Your task to perform on an android device: change the clock display to digital Image 0: 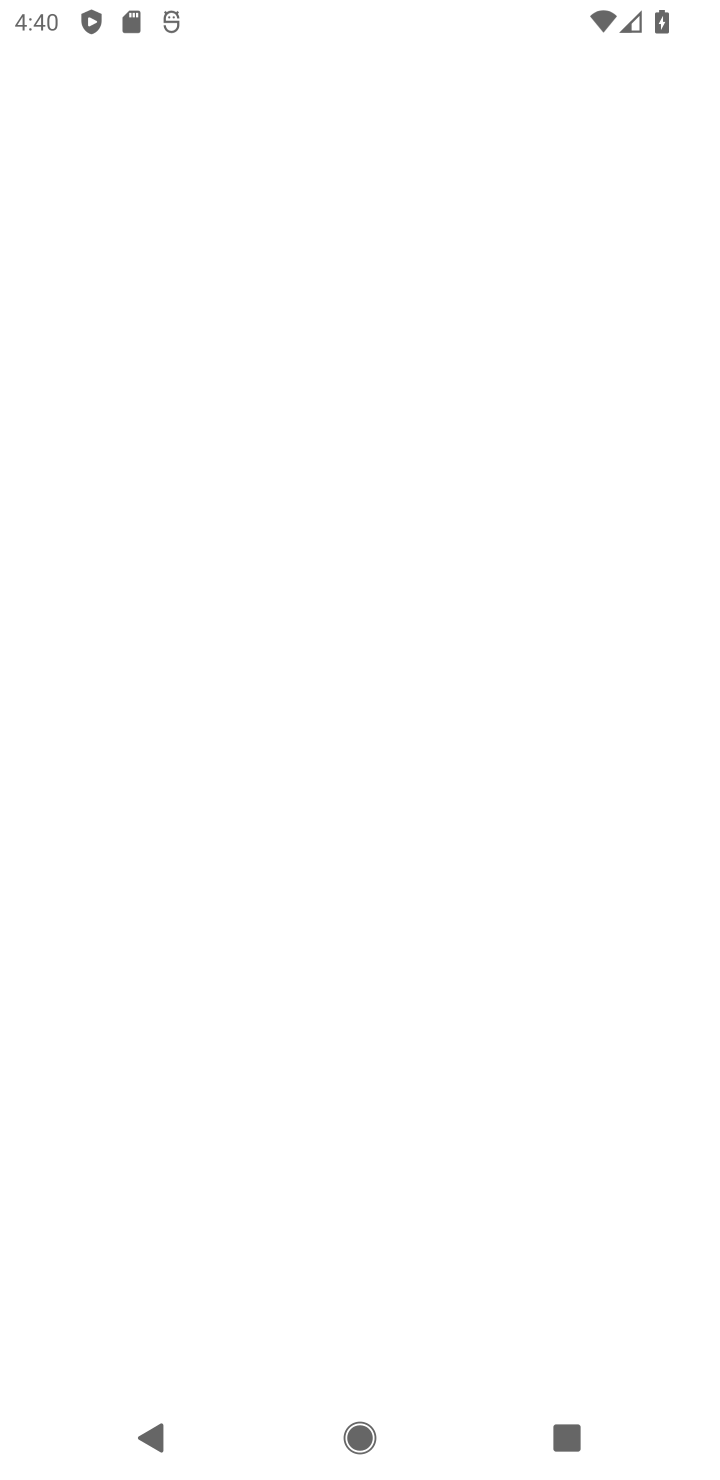
Step 0: click (40, 89)
Your task to perform on an android device: change the clock display to digital Image 1: 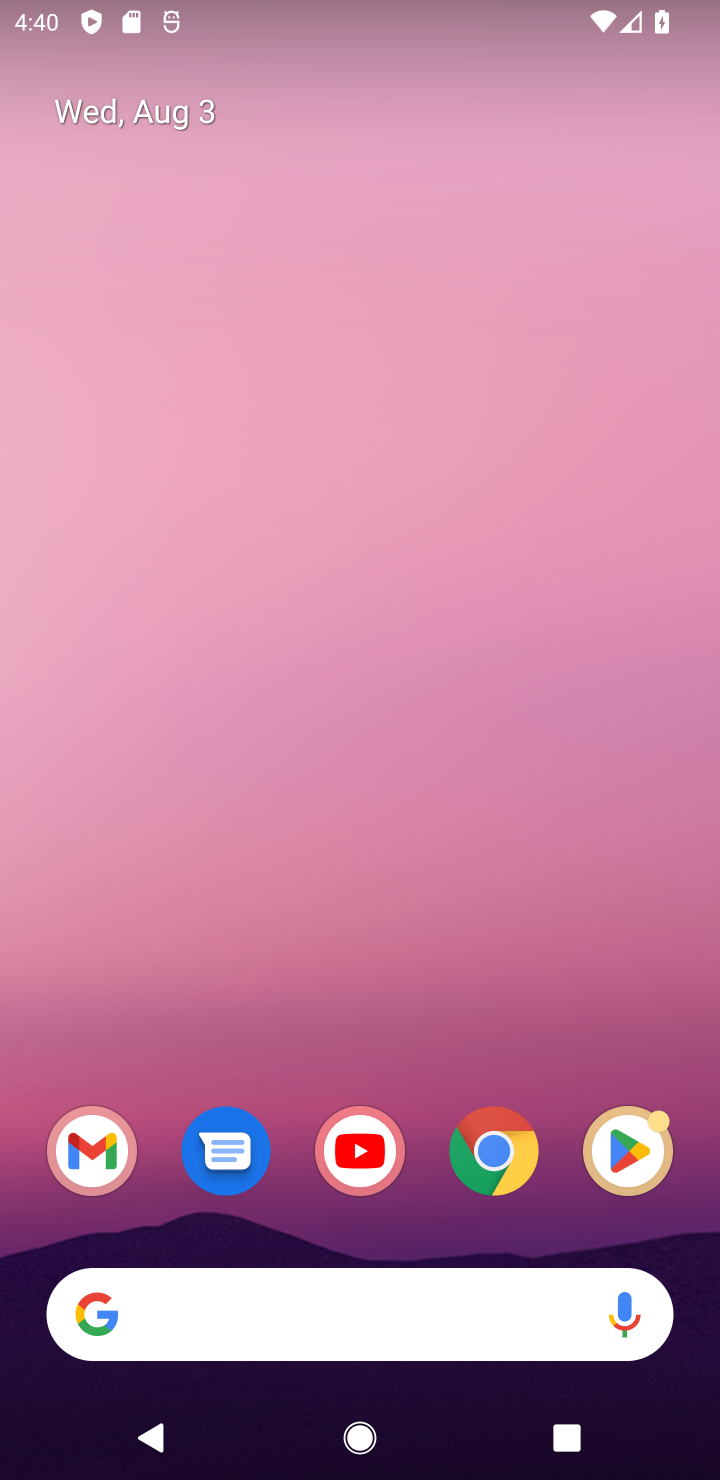
Step 1: press back button
Your task to perform on an android device: change the clock display to digital Image 2: 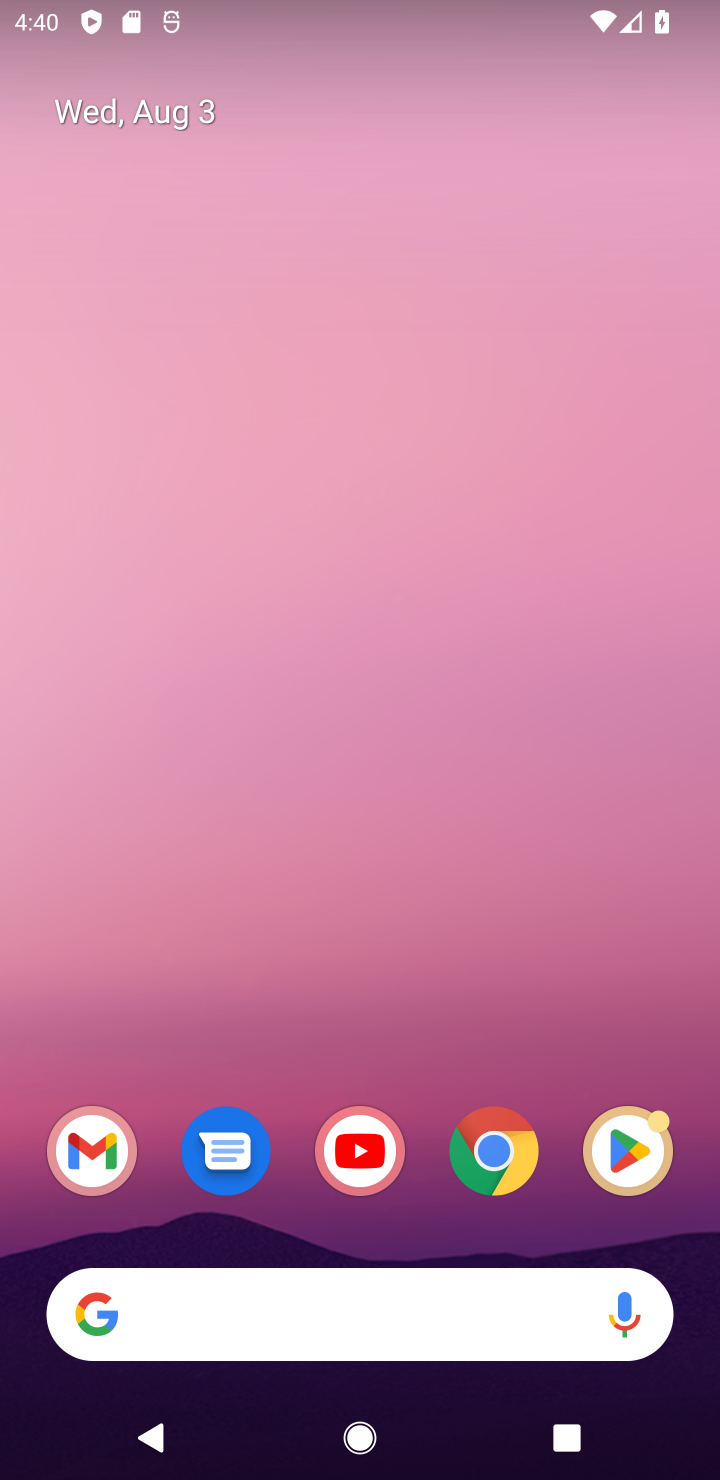
Step 2: drag from (299, 898) to (253, 472)
Your task to perform on an android device: change the clock display to digital Image 3: 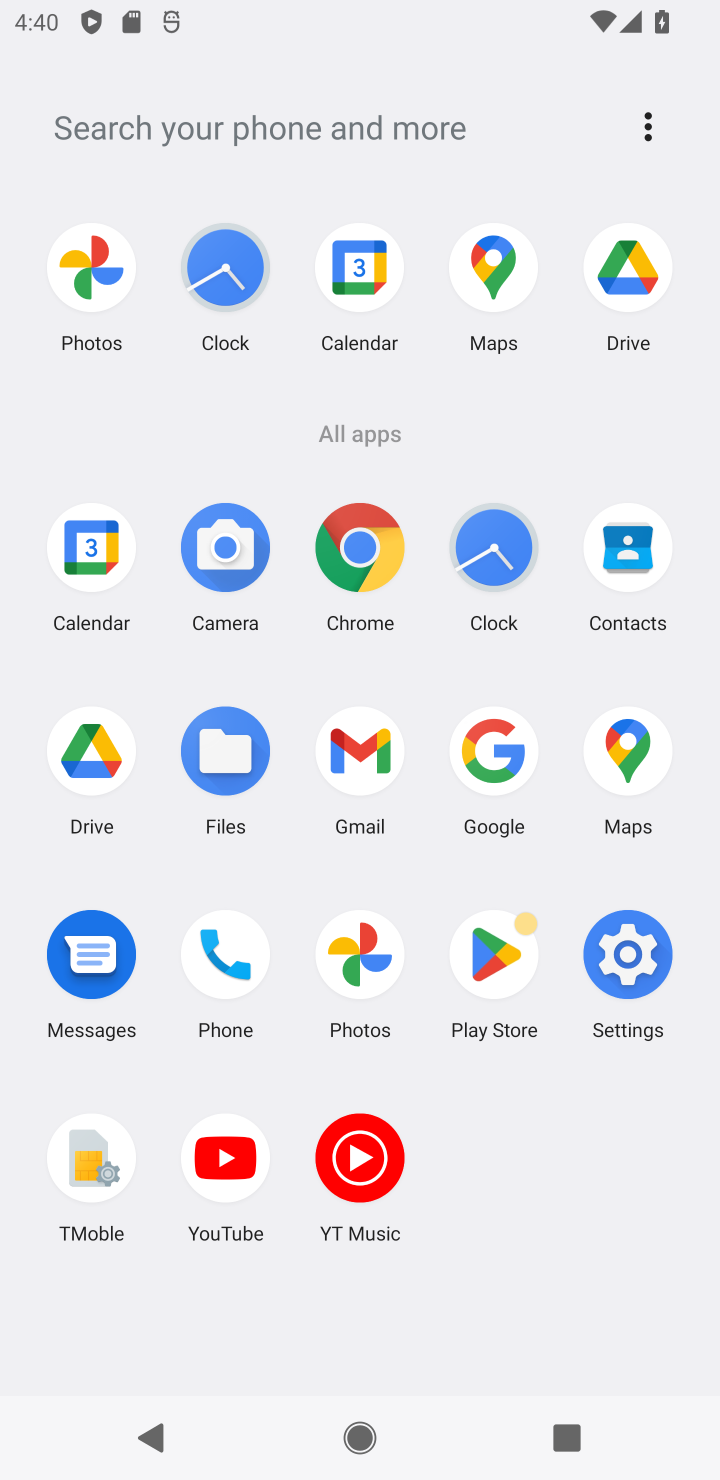
Step 3: click (490, 536)
Your task to perform on an android device: change the clock display to digital Image 4: 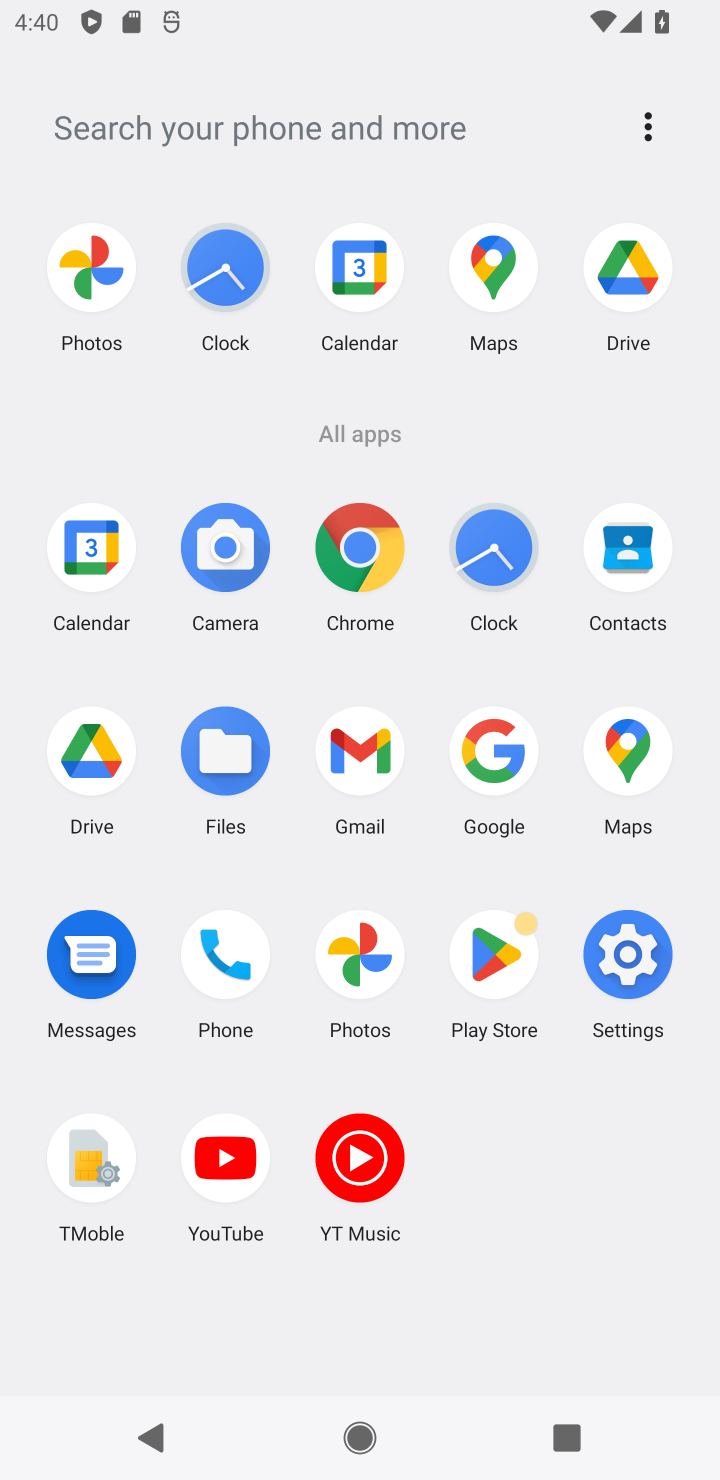
Step 4: click (499, 536)
Your task to perform on an android device: change the clock display to digital Image 5: 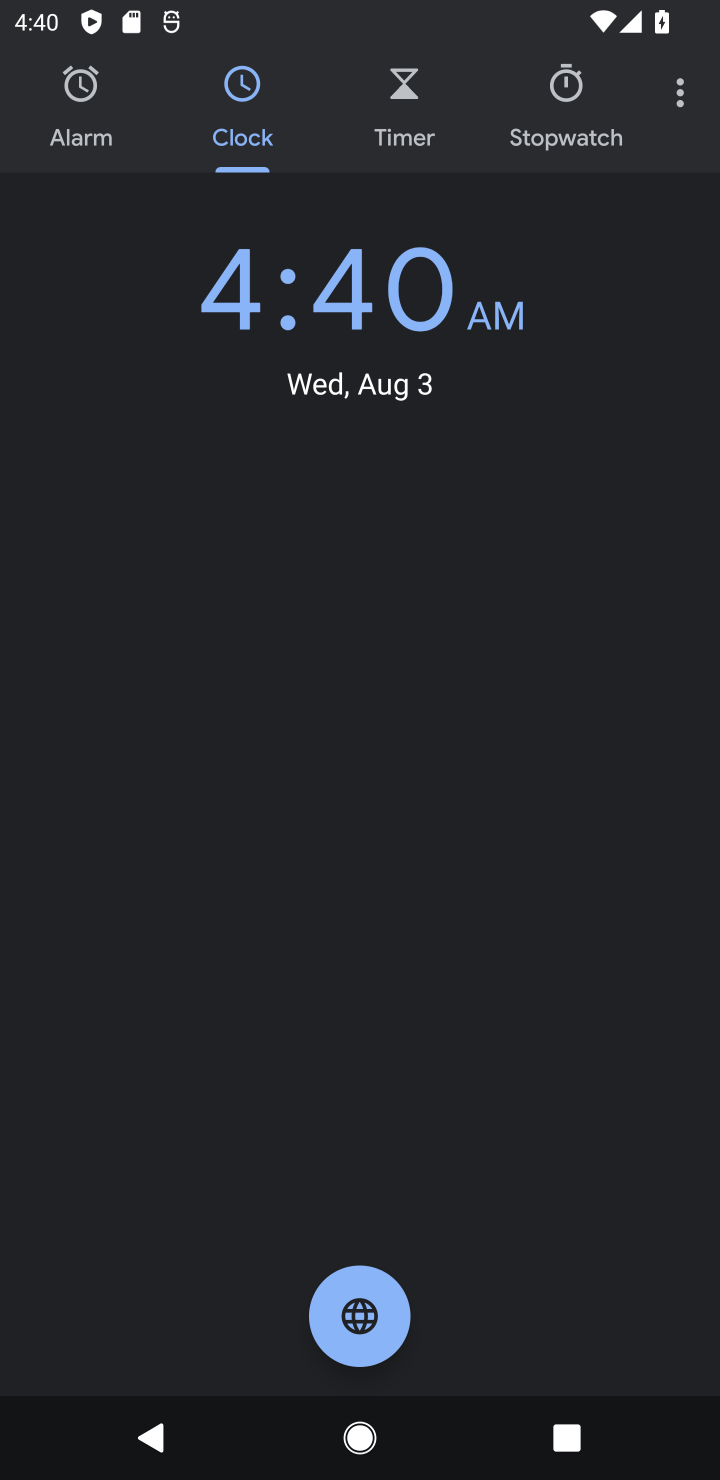
Step 5: click (679, 81)
Your task to perform on an android device: change the clock display to digital Image 6: 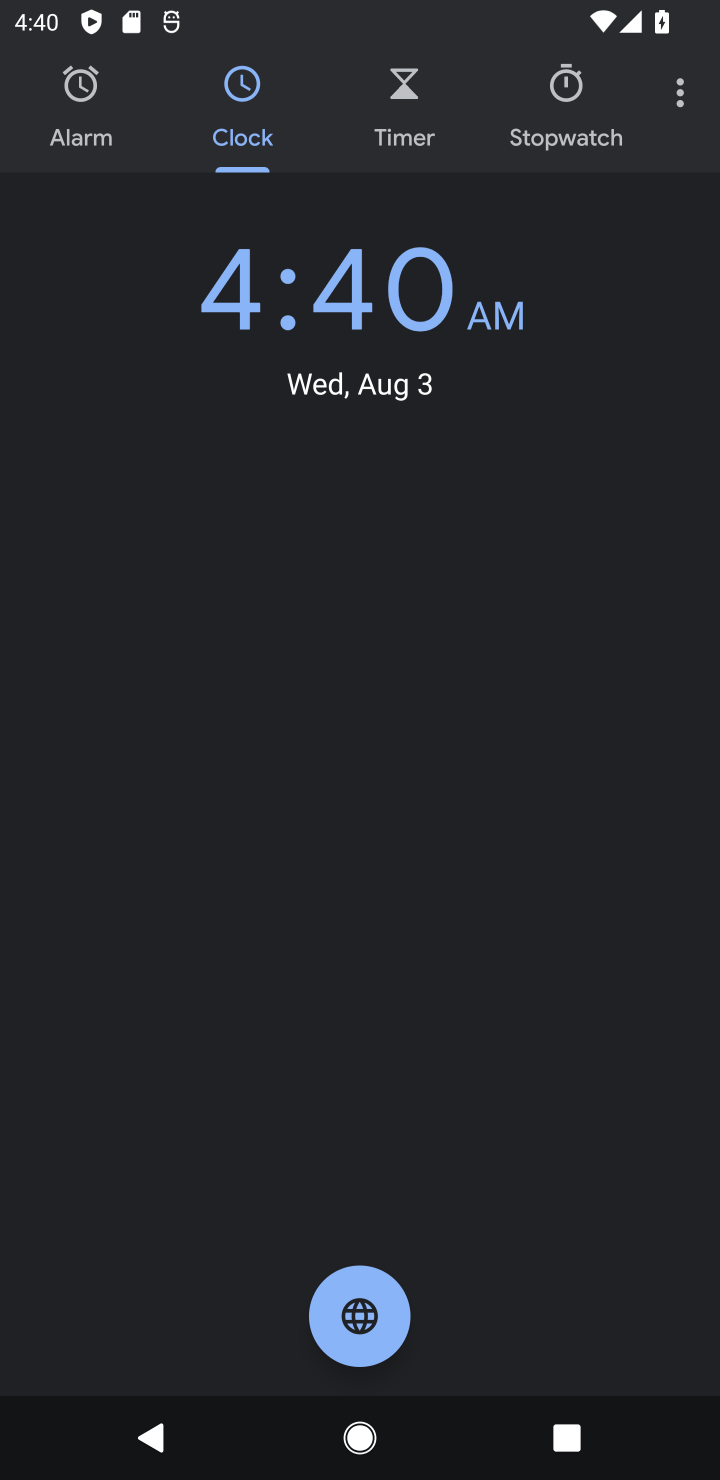
Step 6: click (665, 99)
Your task to perform on an android device: change the clock display to digital Image 7: 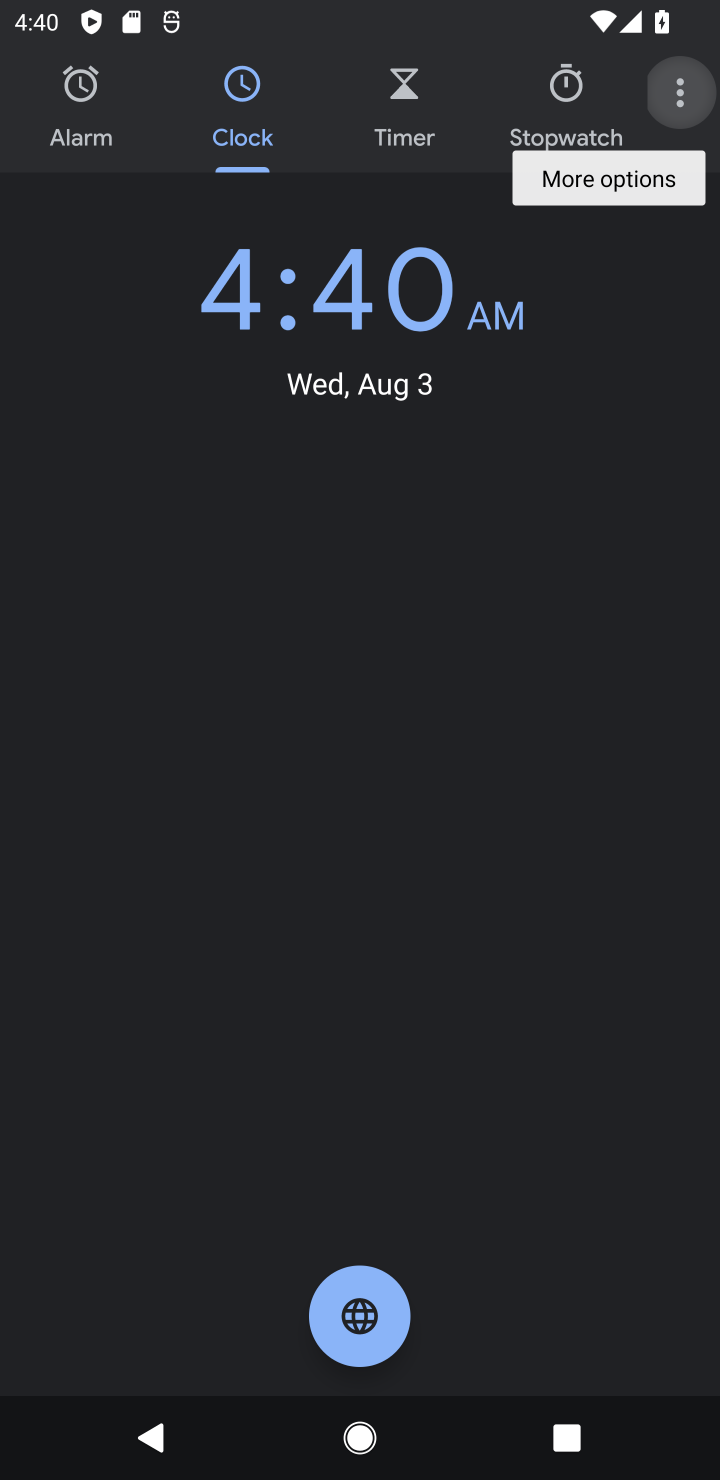
Step 7: click (665, 99)
Your task to perform on an android device: change the clock display to digital Image 8: 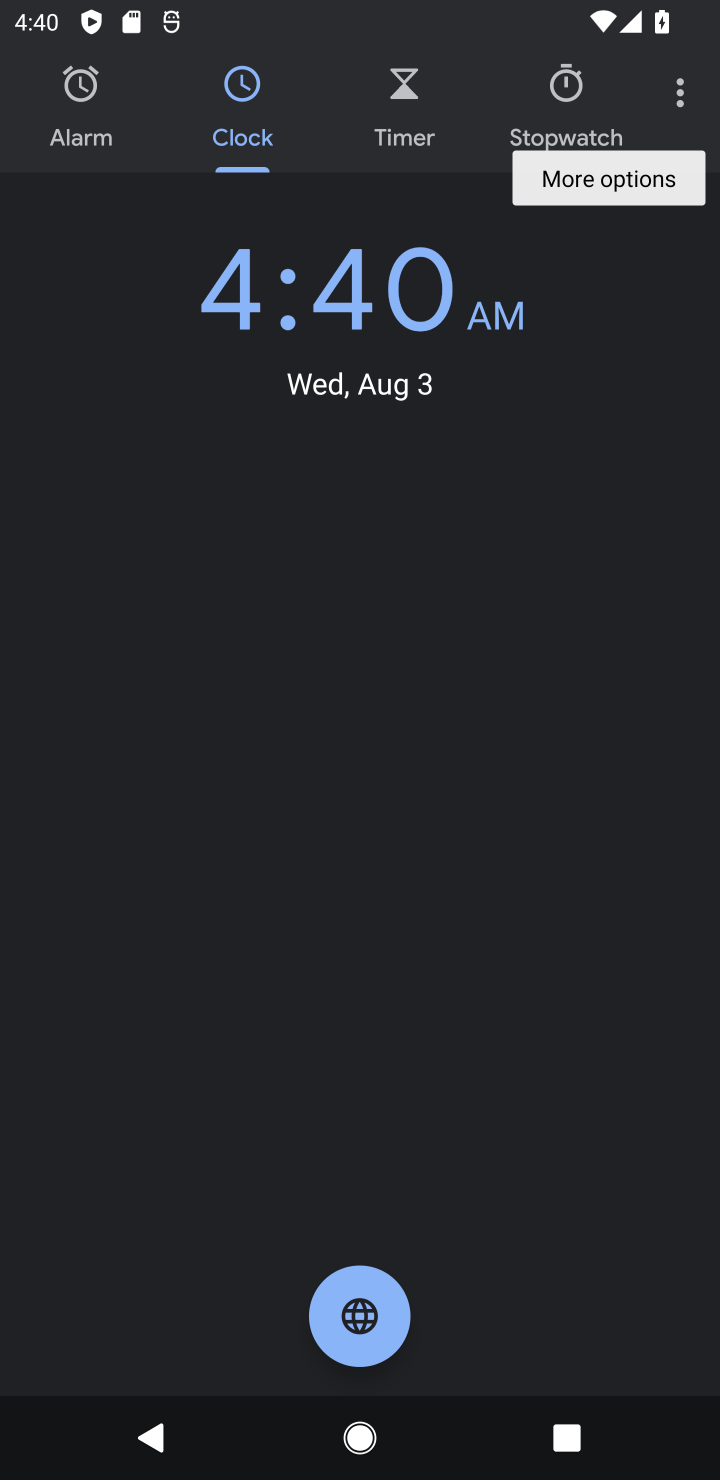
Step 8: click (639, 171)
Your task to perform on an android device: change the clock display to digital Image 9: 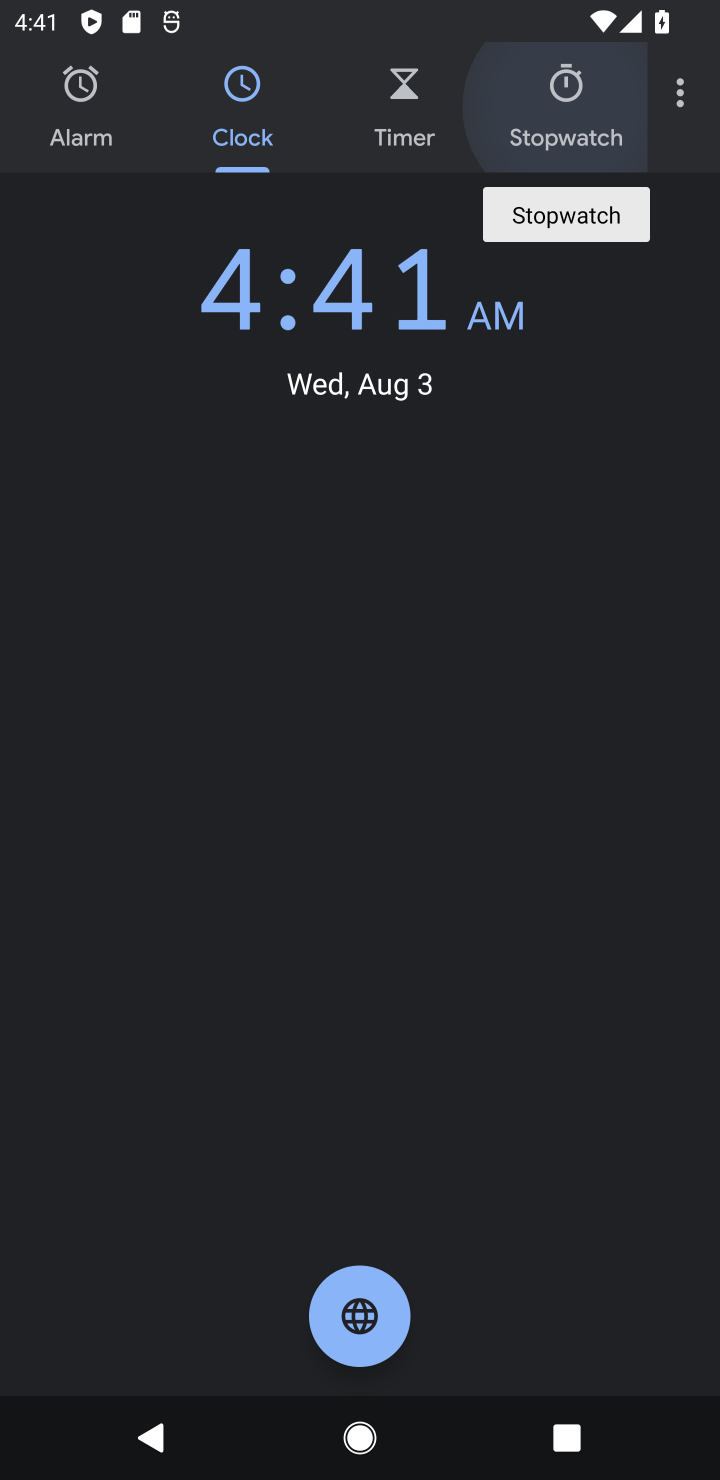
Step 9: click (663, 92)
Your task to perform on an android device: change the clock display to digital Image 10: 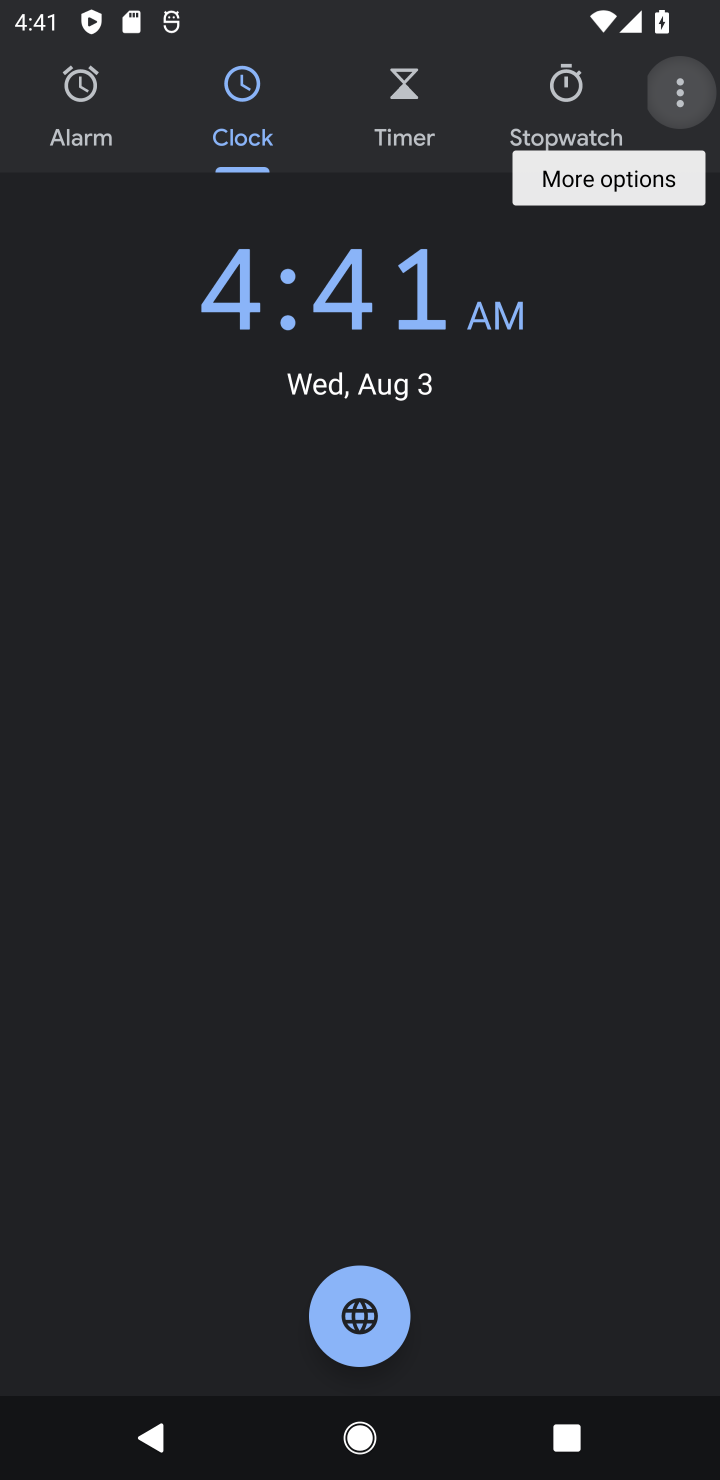
Step 10: click (656, 164)
Your task to perform on an android device: change the clock display to digital Image 11: 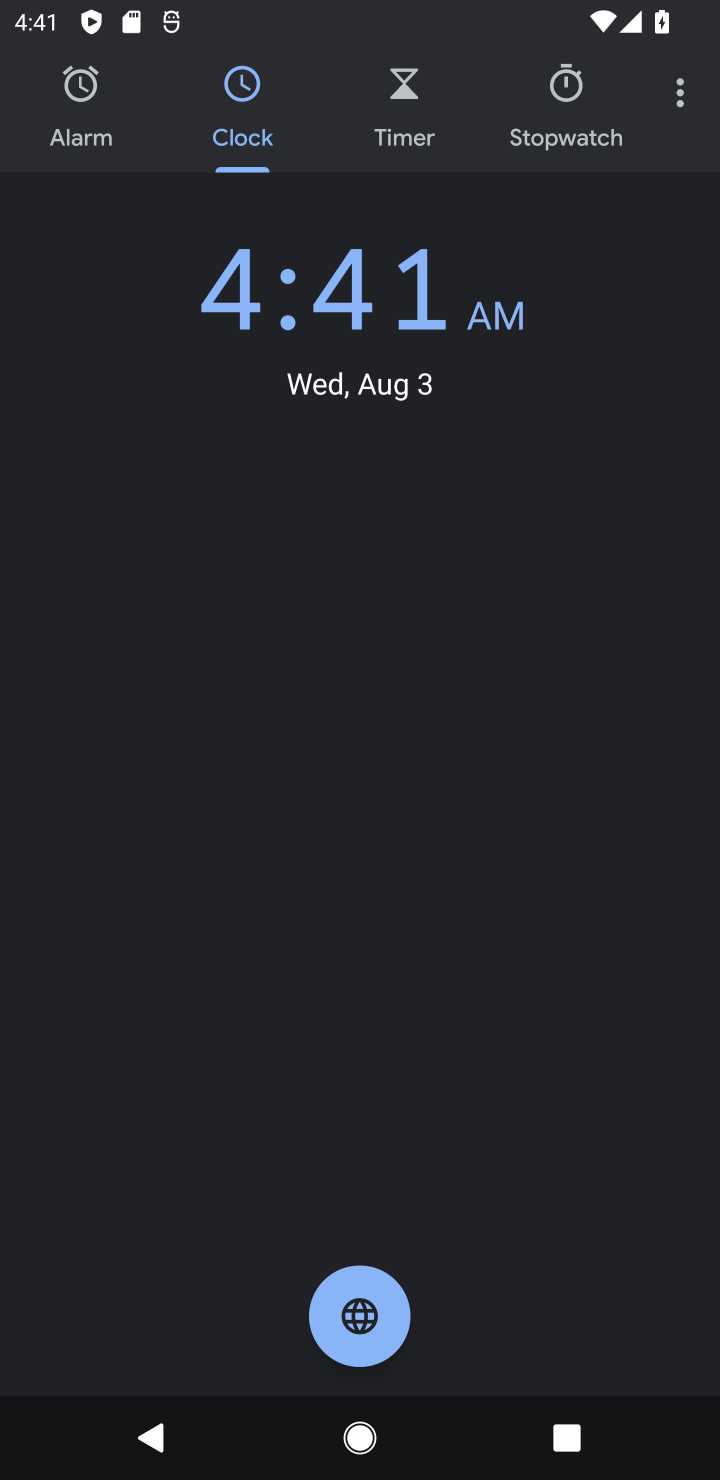
Step 11: click (656, 164)
Your task to perform on an android device: change the clock display to digital Image 12: 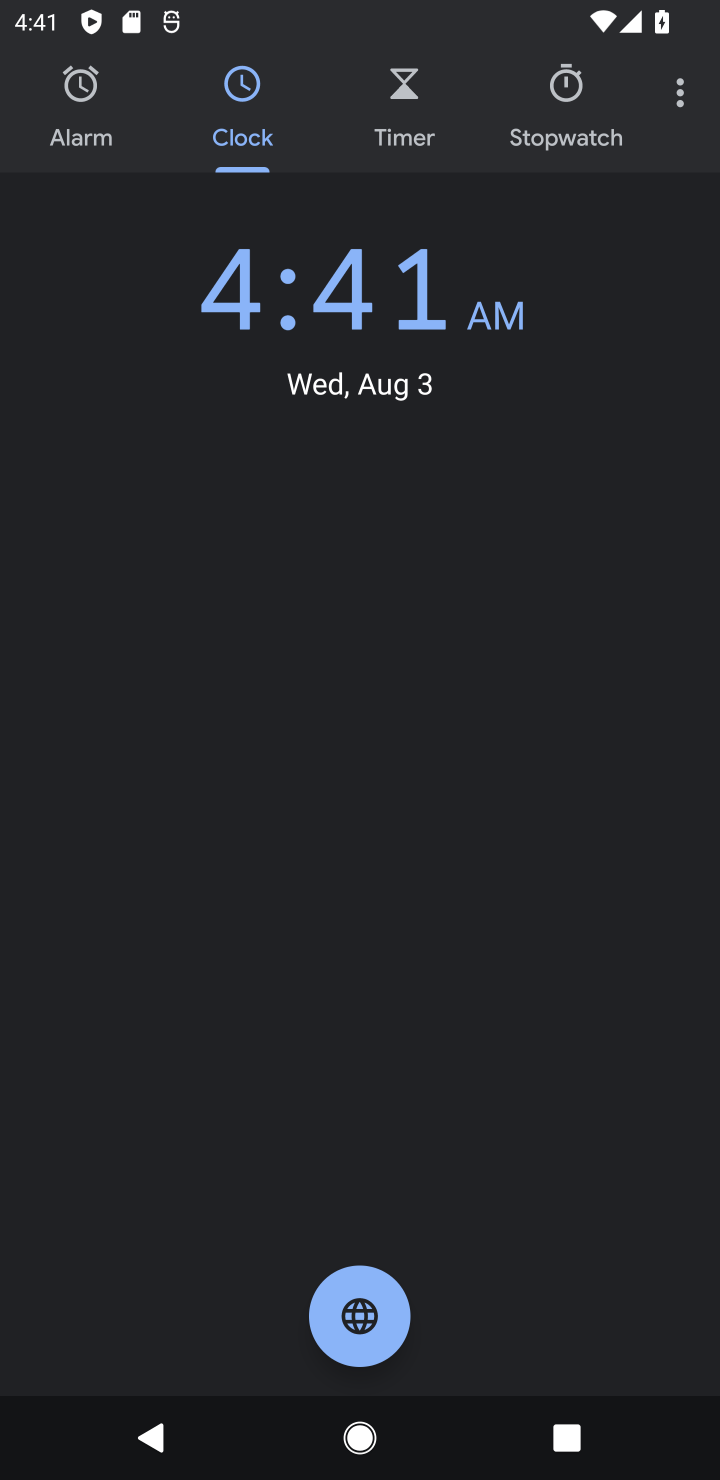
Step 12: click (689, 90)
Your task to perform on an android device: change the clock display to digital Image 13: 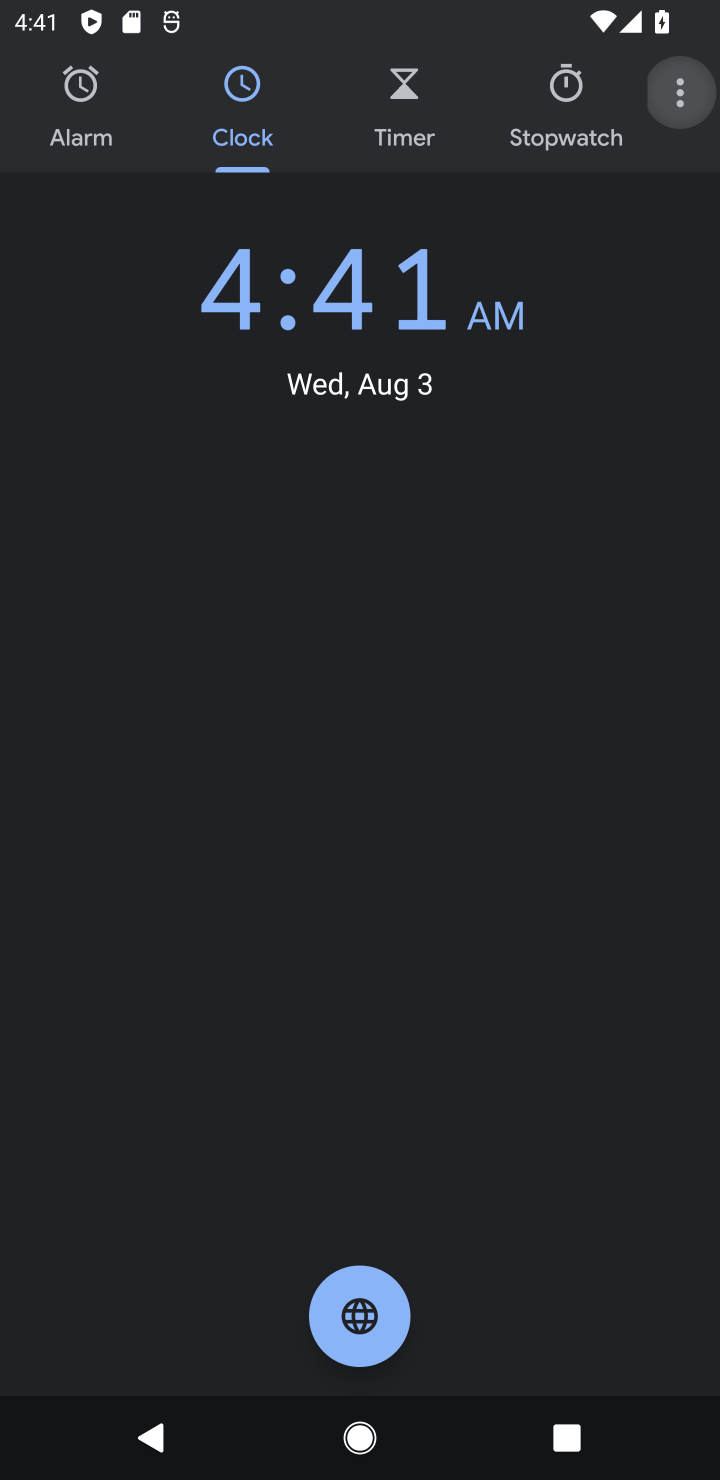
Step 13: click (687, 95)
Your task to perform on an android device: change the clock display to digital Image 14: 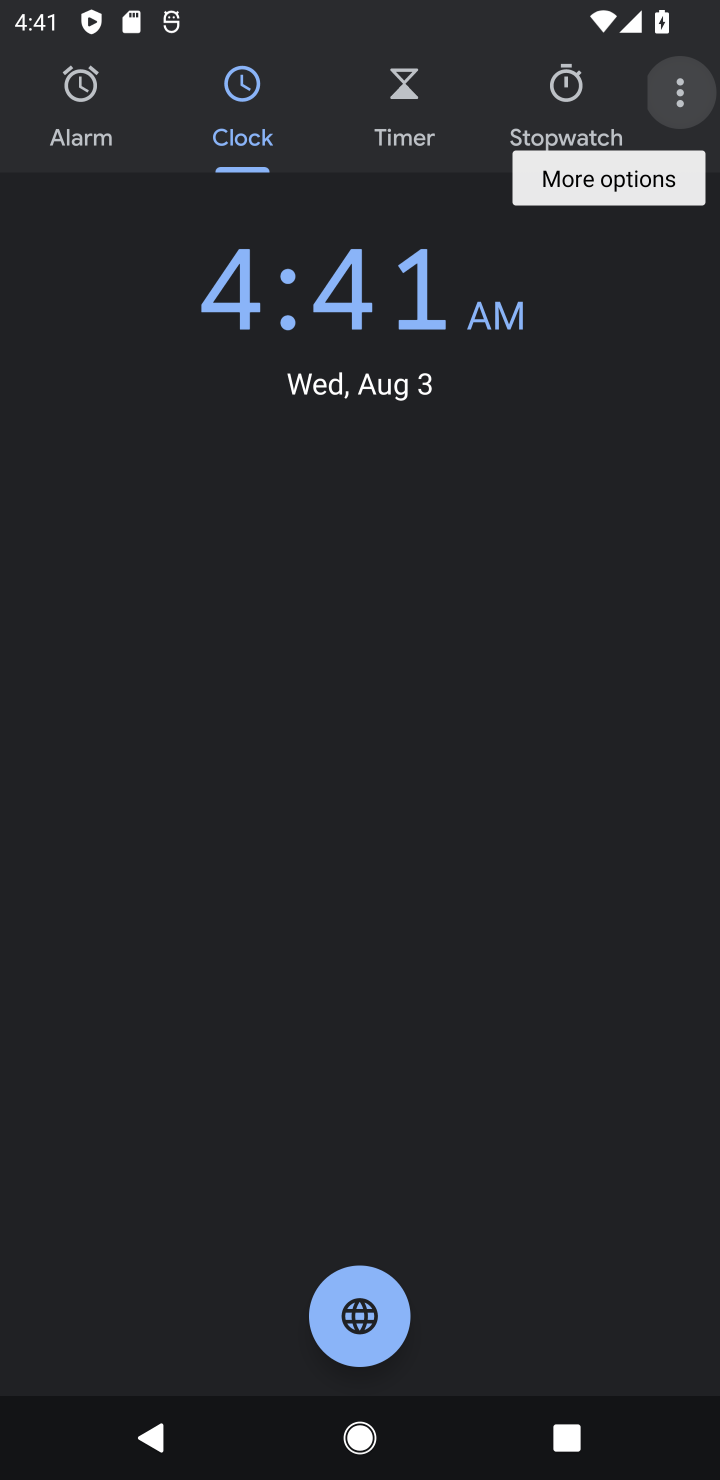
Step 14: click (674, 93)
Your task to perform on an android device: change the clock display to digital Image 15: 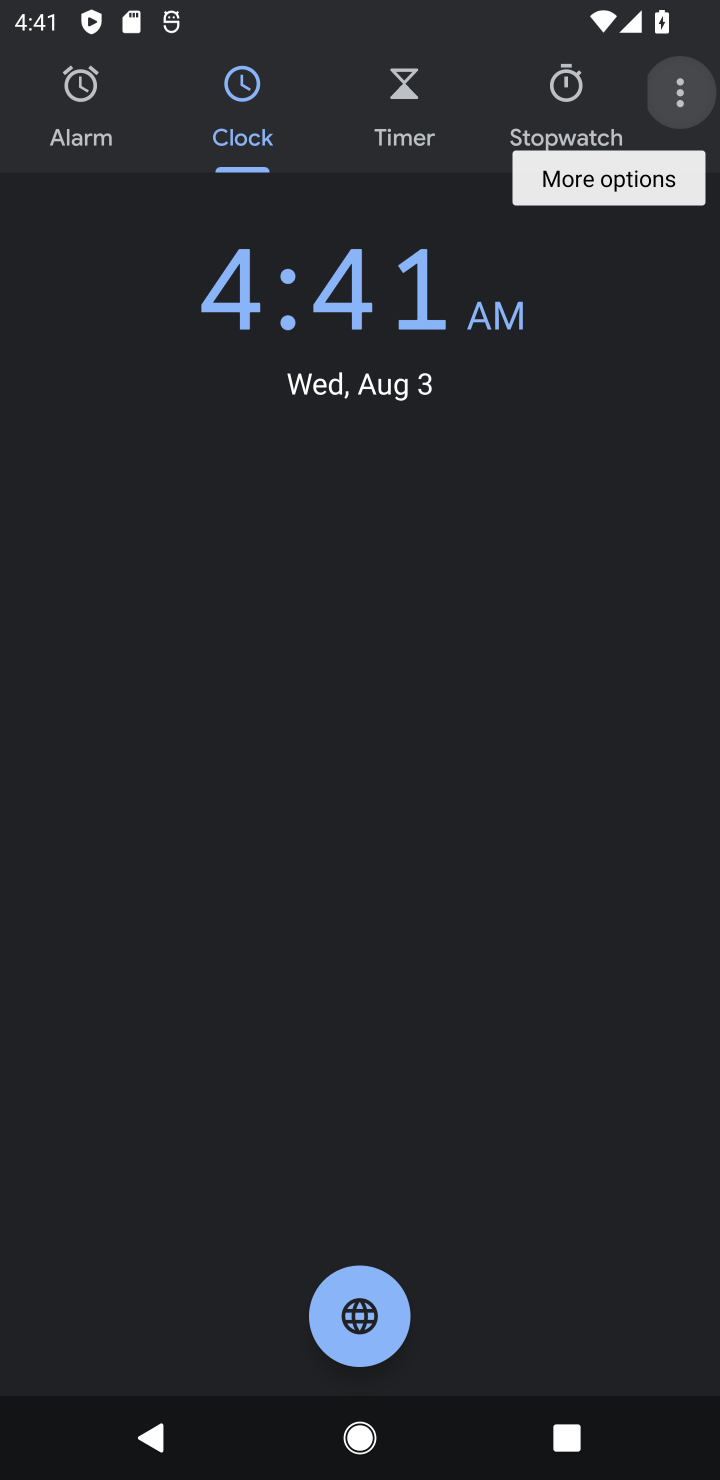
Step 15: click (660, 207)
Your task to perform on an android device: change the clock display to digital Image 16: 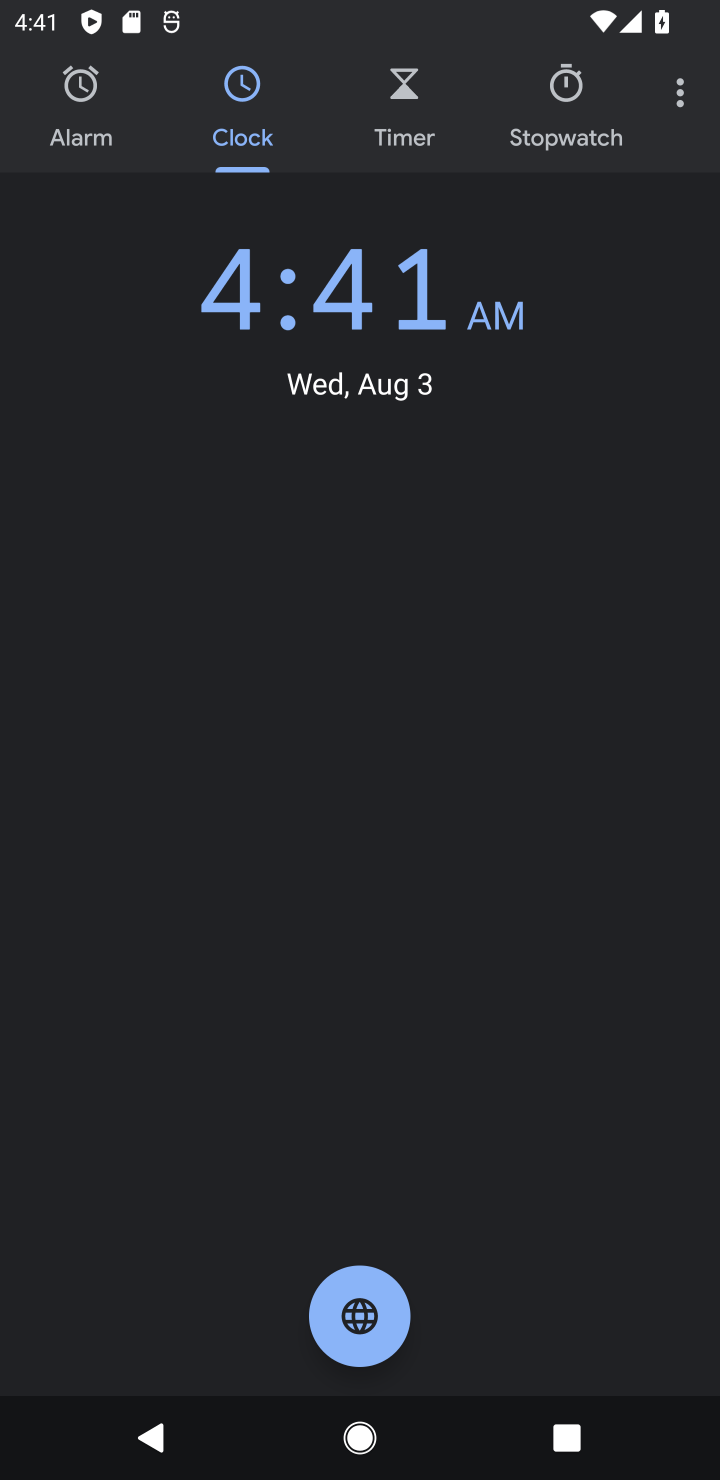
Step 16: click (663, 165)
Your task to perform on an android device: change the clock display to digital Image 17: 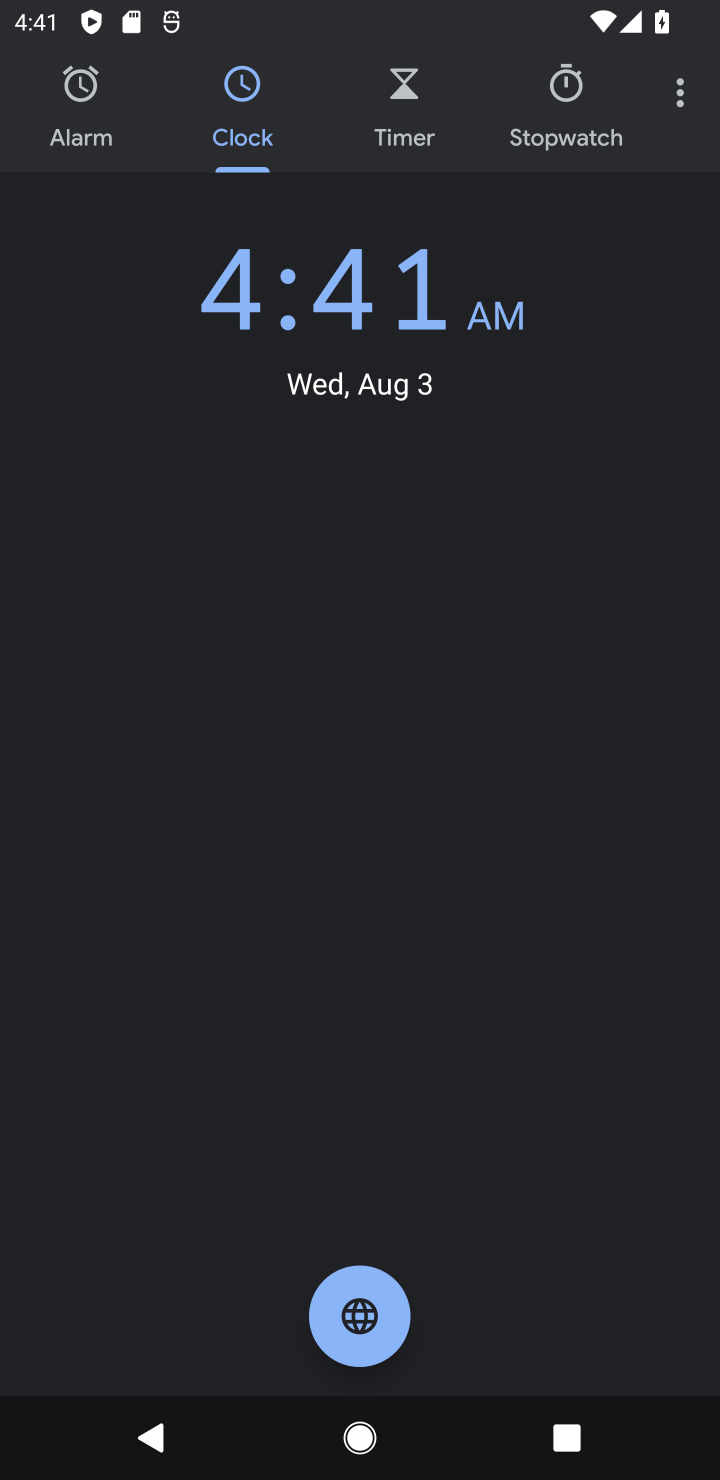
Step 17: click (664, 164)
Your task to perform on an android device: change the clock display to digital Image 18: 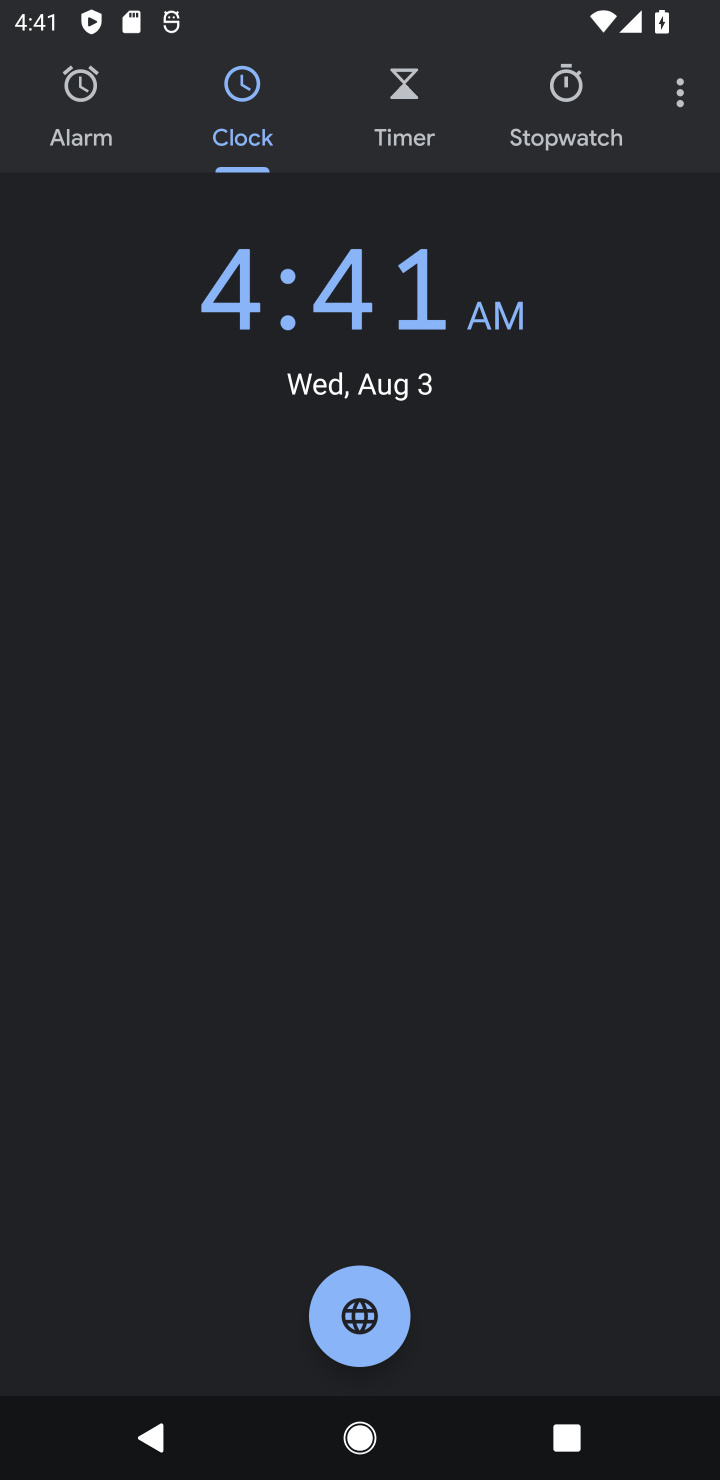
Step 18: click (675, 87)
Your task to perform on an android device: change the clock display to digital Image 19: 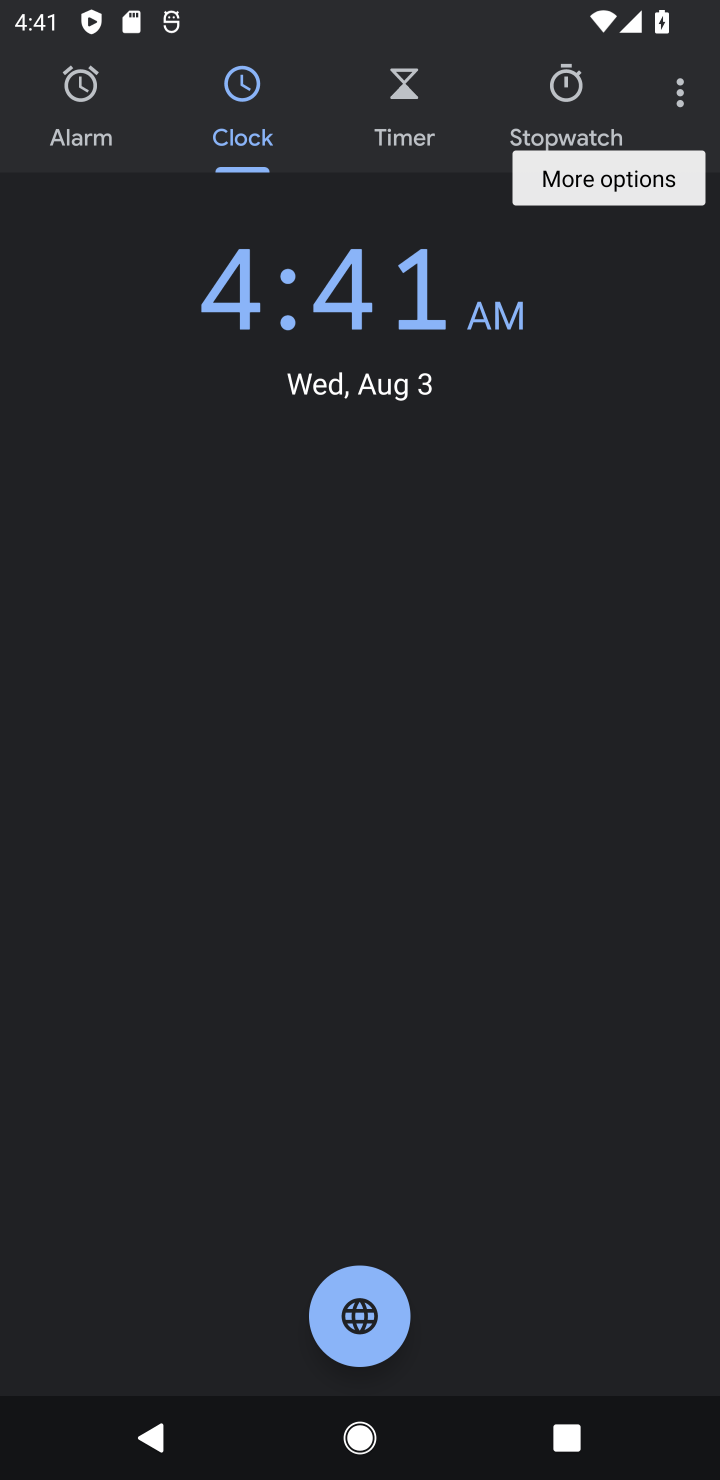
Step 19: click (672, 99)
Your task to perform on an android device: change the clock display to digital Image 20: 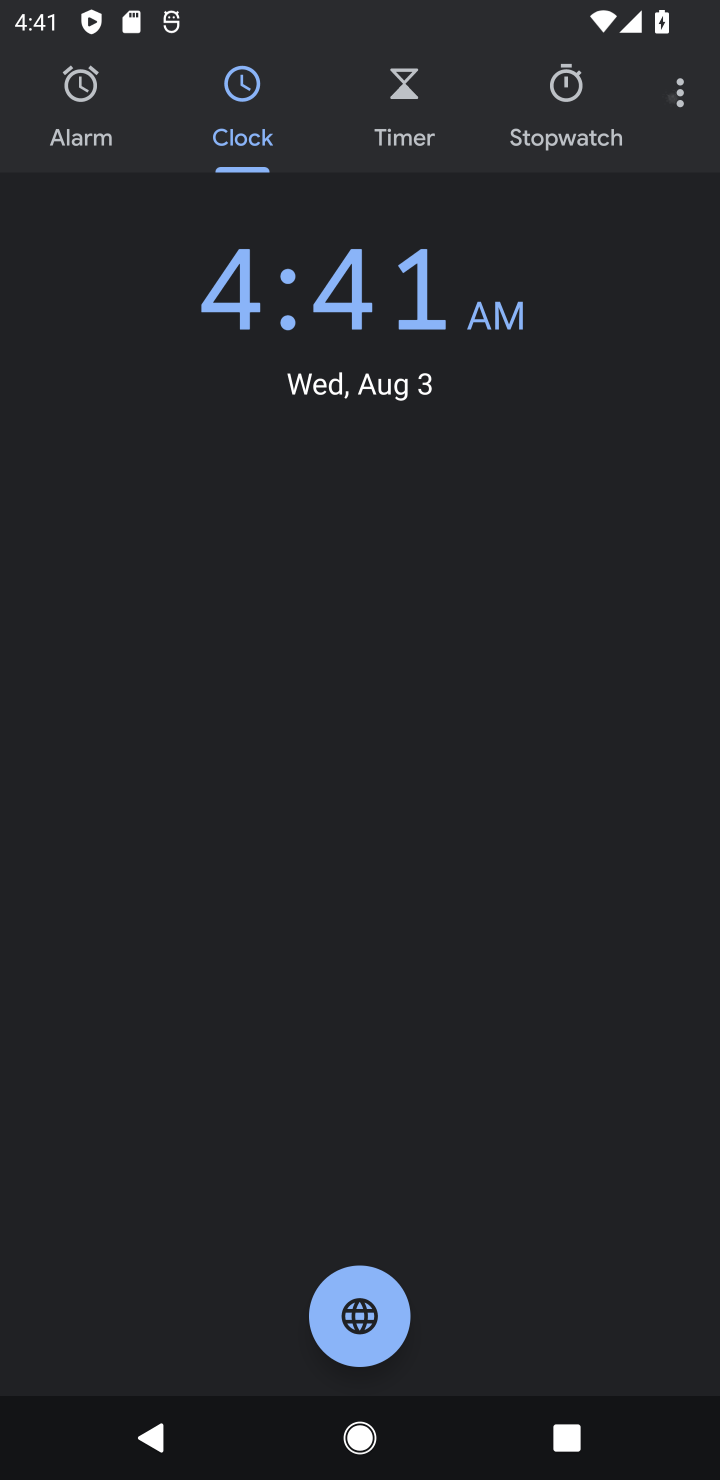
Step 20: click (672, 100)
Your task to perform on an android device: change the clock display to digital Image 21: 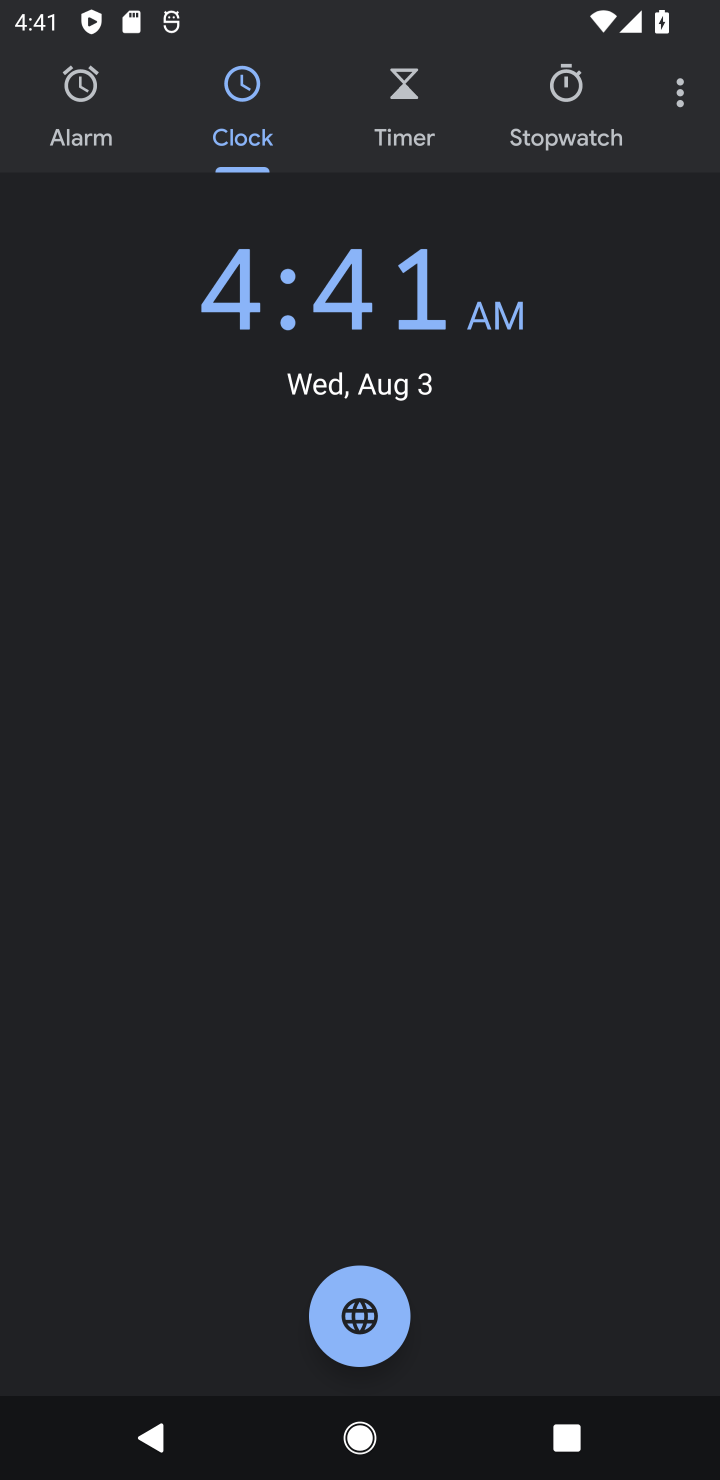
Step 21: drag from (674, 69) to (587, 705)
Your task to perform on an android device: change the clock display to digital Image 22: 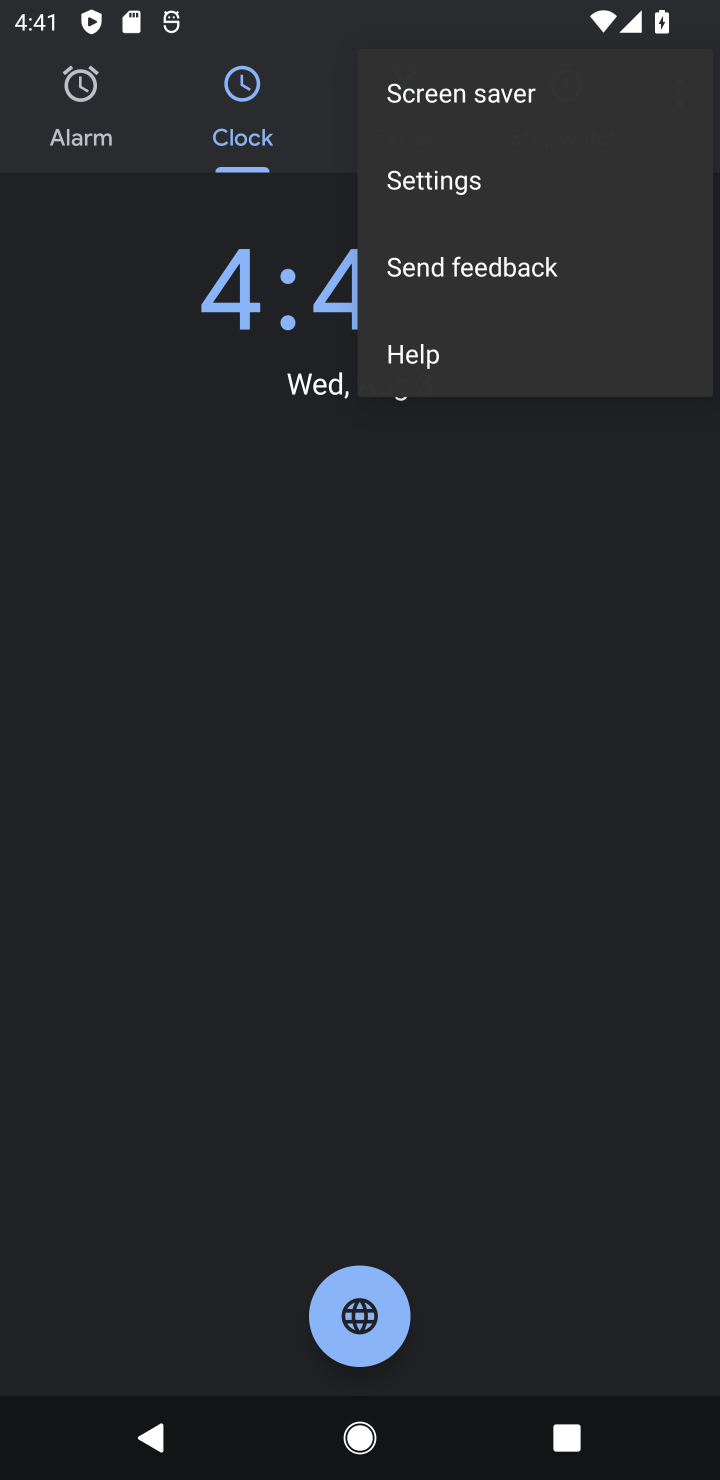
Step 22: click (640, 199)
Your task to perform on an android device: change the clock display to digital Image 23: 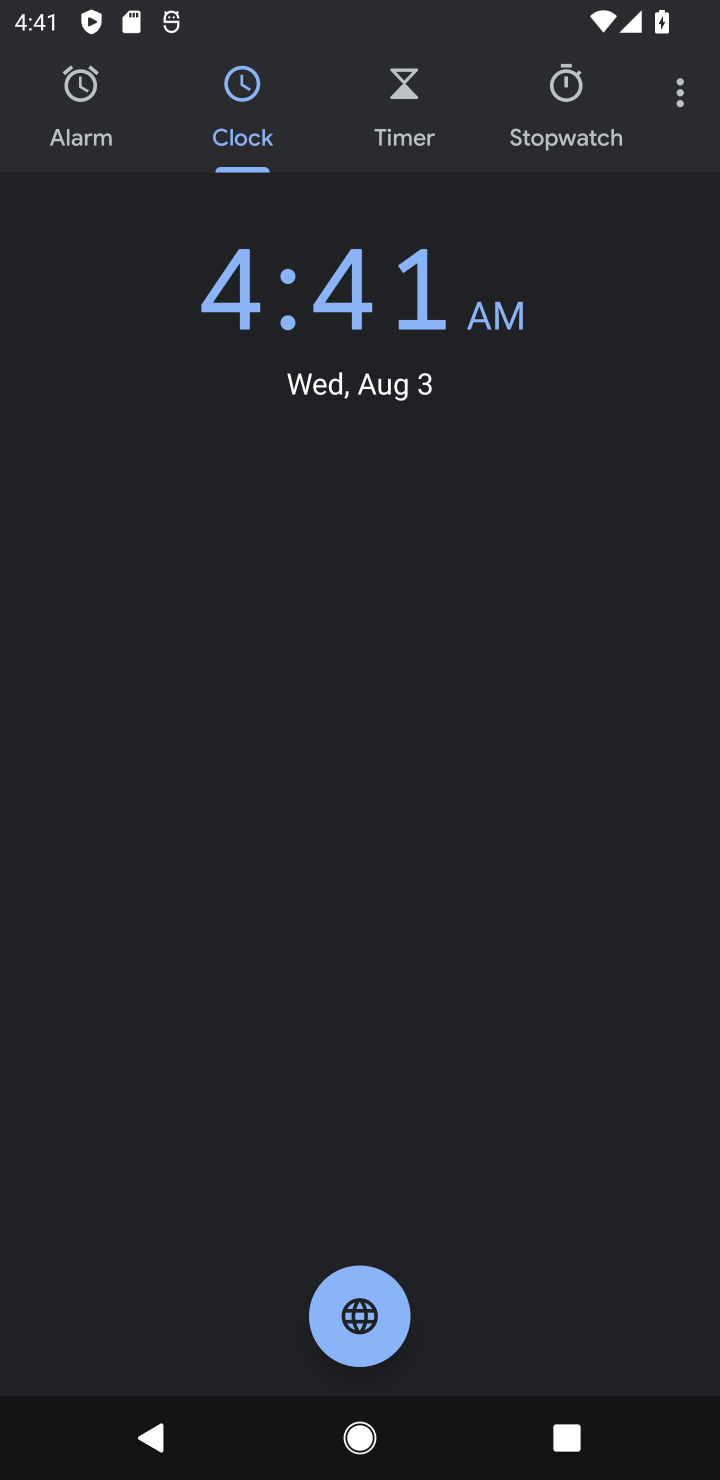
Step 23: click (662, 84)
Your task to perform on an android device: change the clock display to digital Image 24: 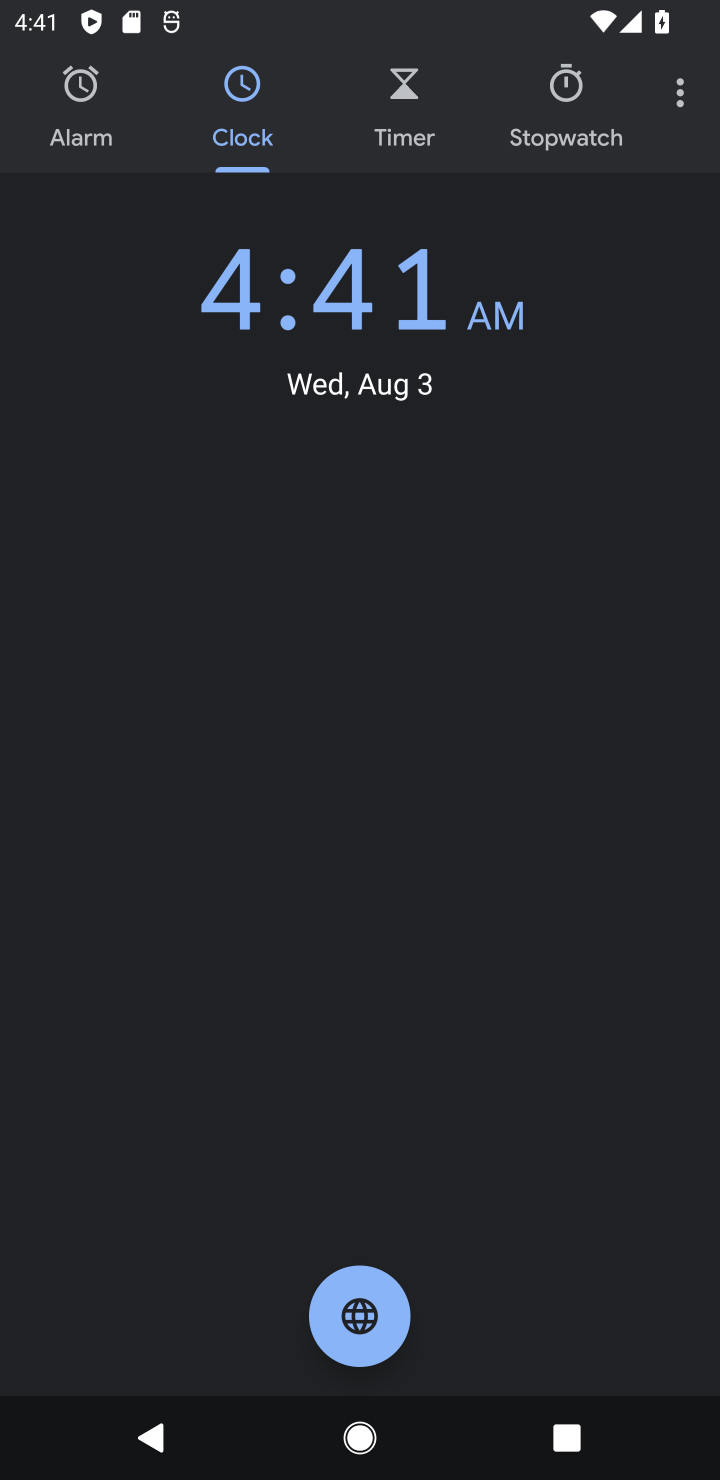
Step 24: click (640, 183)
Your task to perform on an android device: change the clock display to digital Image 25: 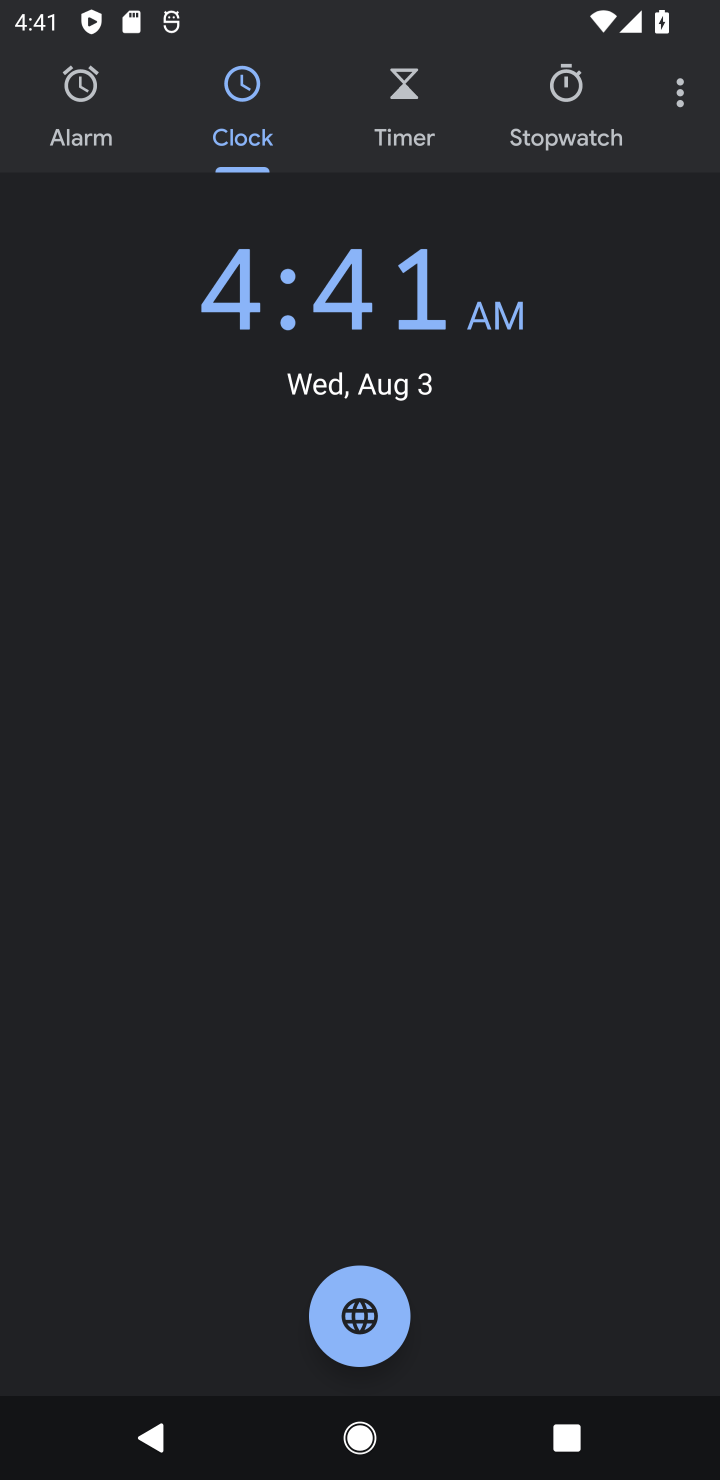
Step 25: click (640, 183)
Your task to perform on an android device: change the clock display to digital Image 26: 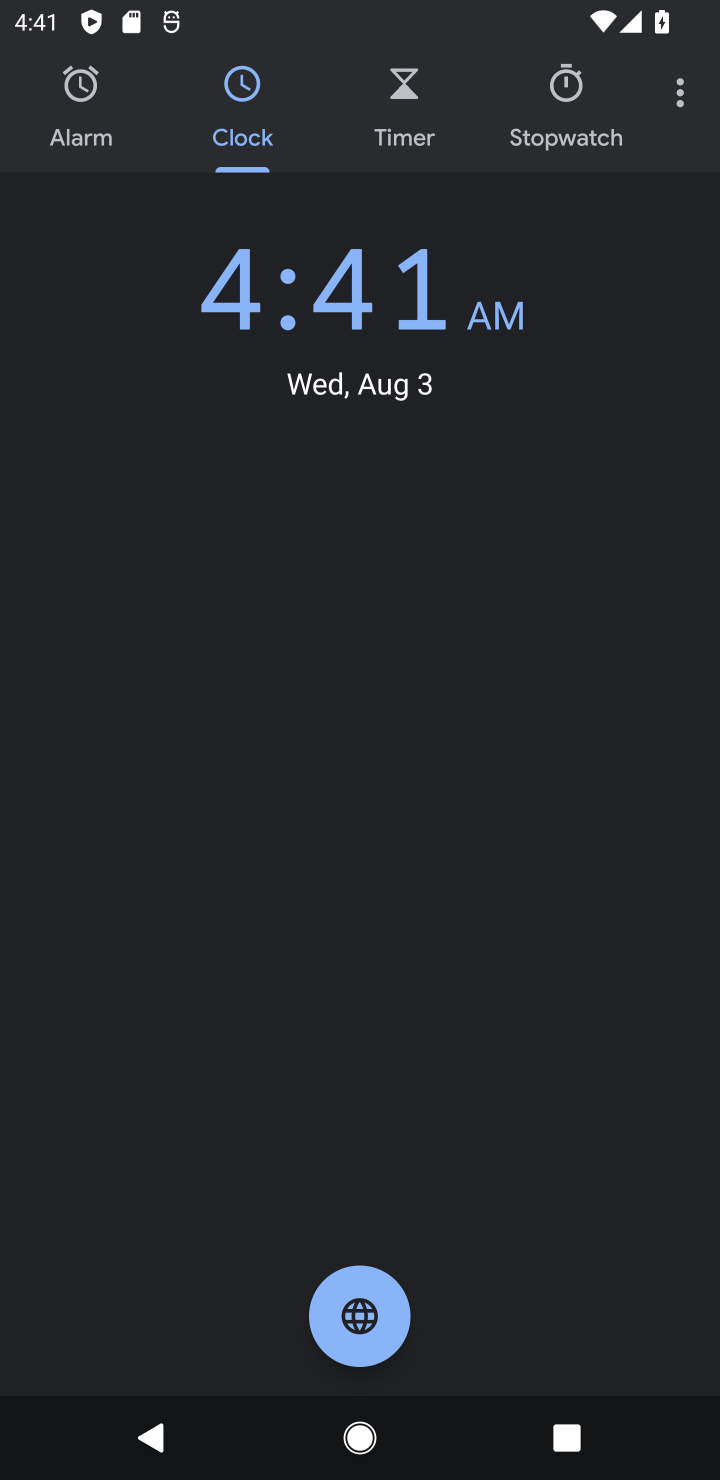
Step 26: click (672, 85)
Your task to perform on an android device: change the clock display to digital Image 27: 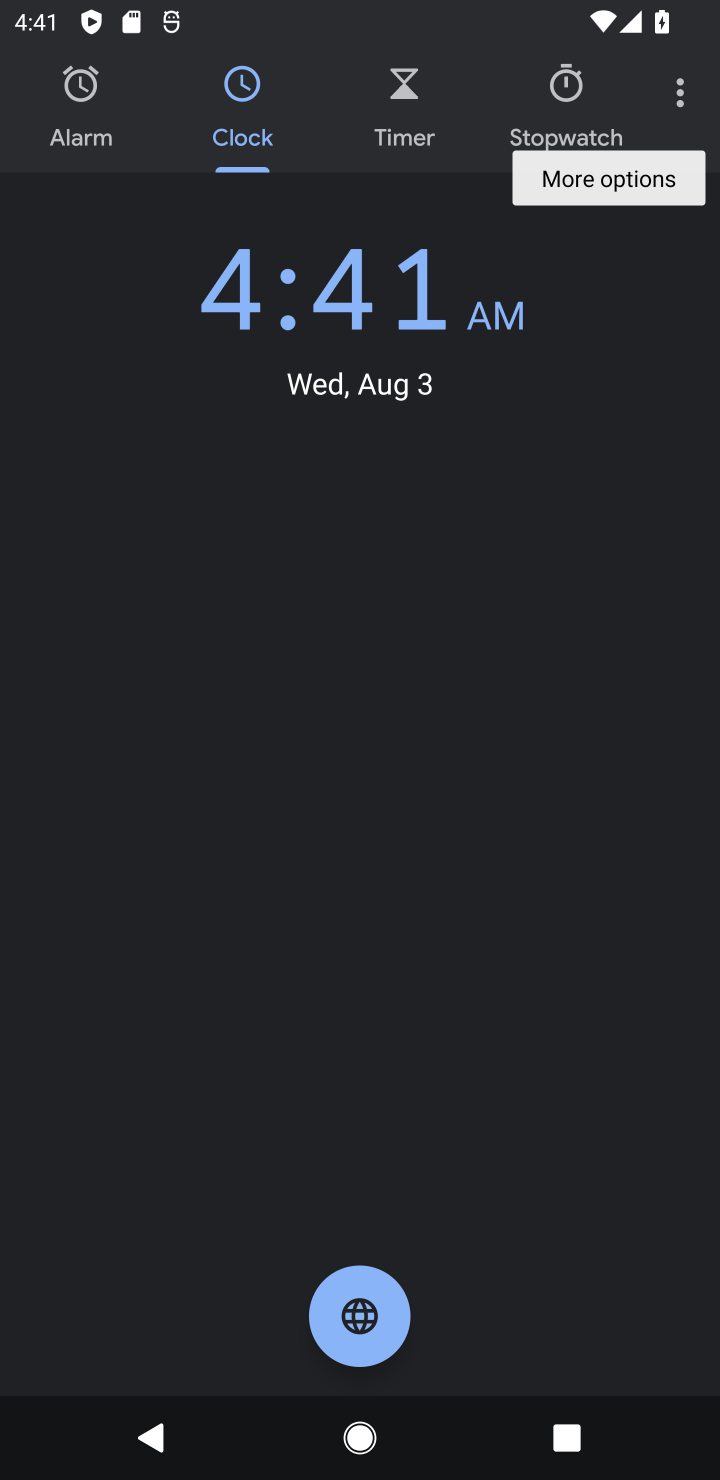
Step 27: click (681, 104)
Your task to perform on an android device: change the clock display to digital Image 28: 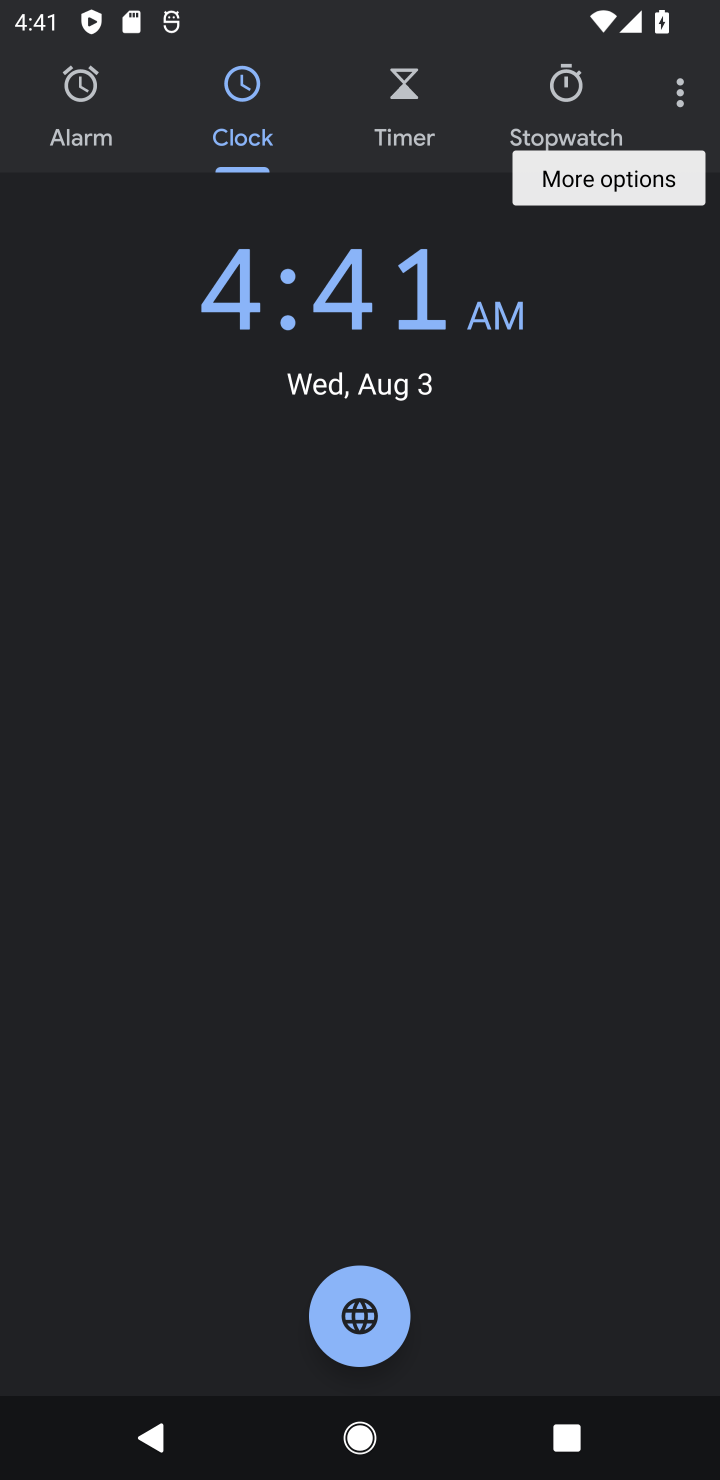
Step 28: click (691, 130)
Your task to perform on an android device: change the clock display to digital Image 29: 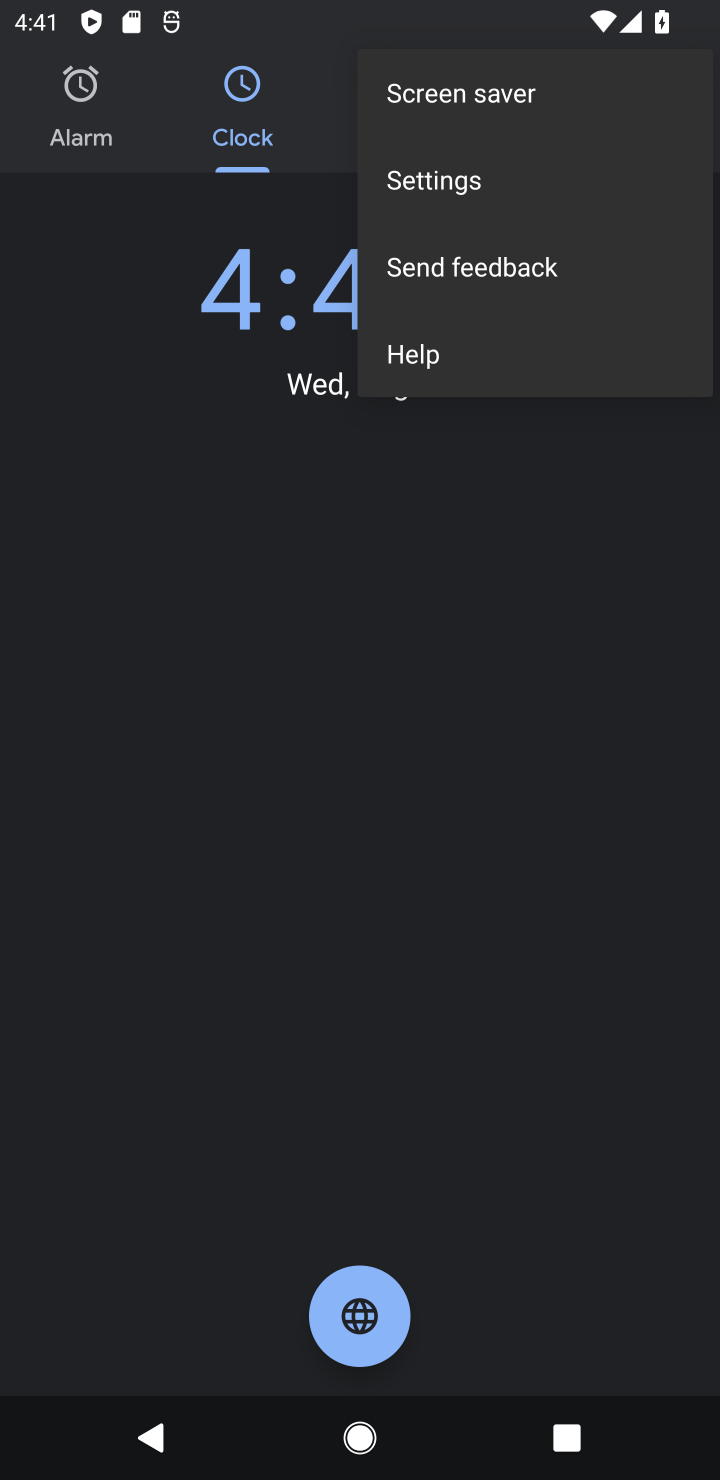
Step 29: click (461, 178)
Your task to perform on an android device: change the clock display to digital Image 30: 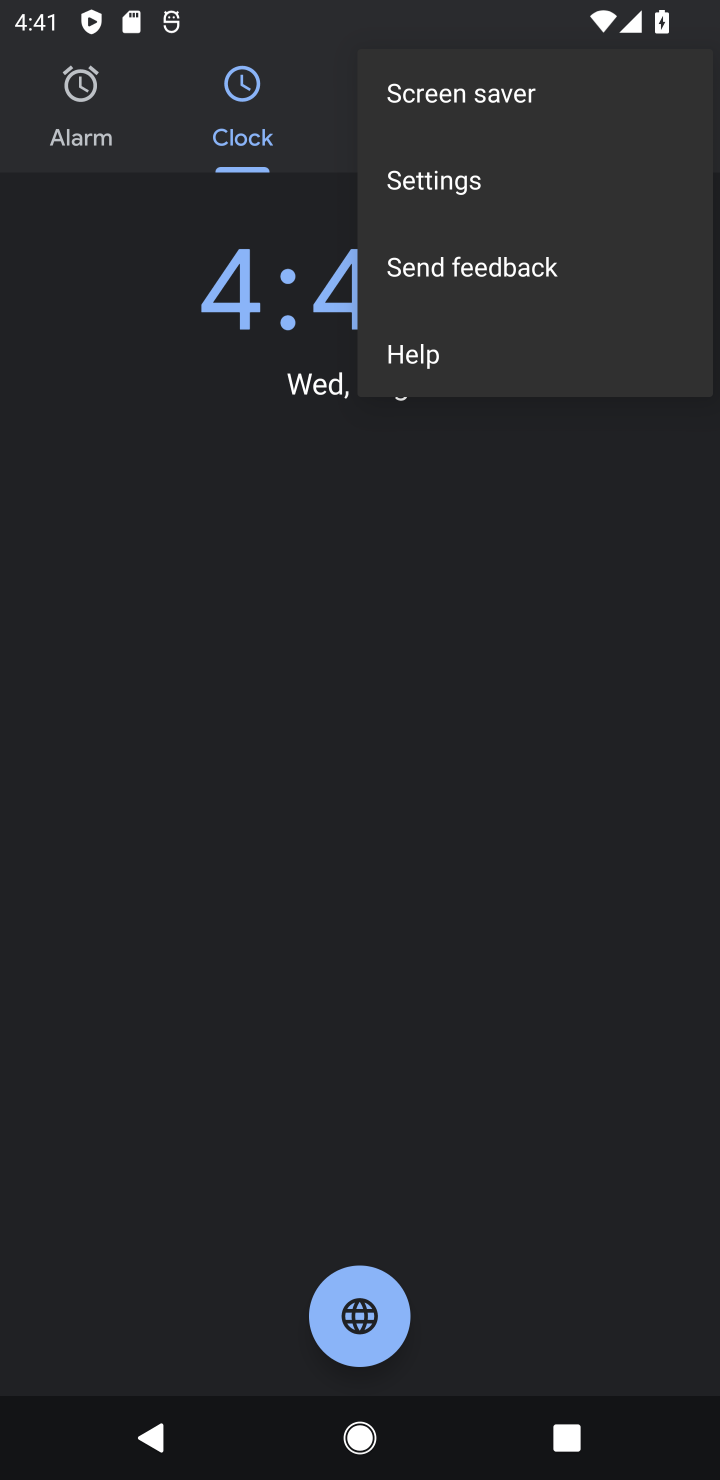
Step 30: click (455, 178)
Your task to perform on an android device: change the clock display to digital Image 31: 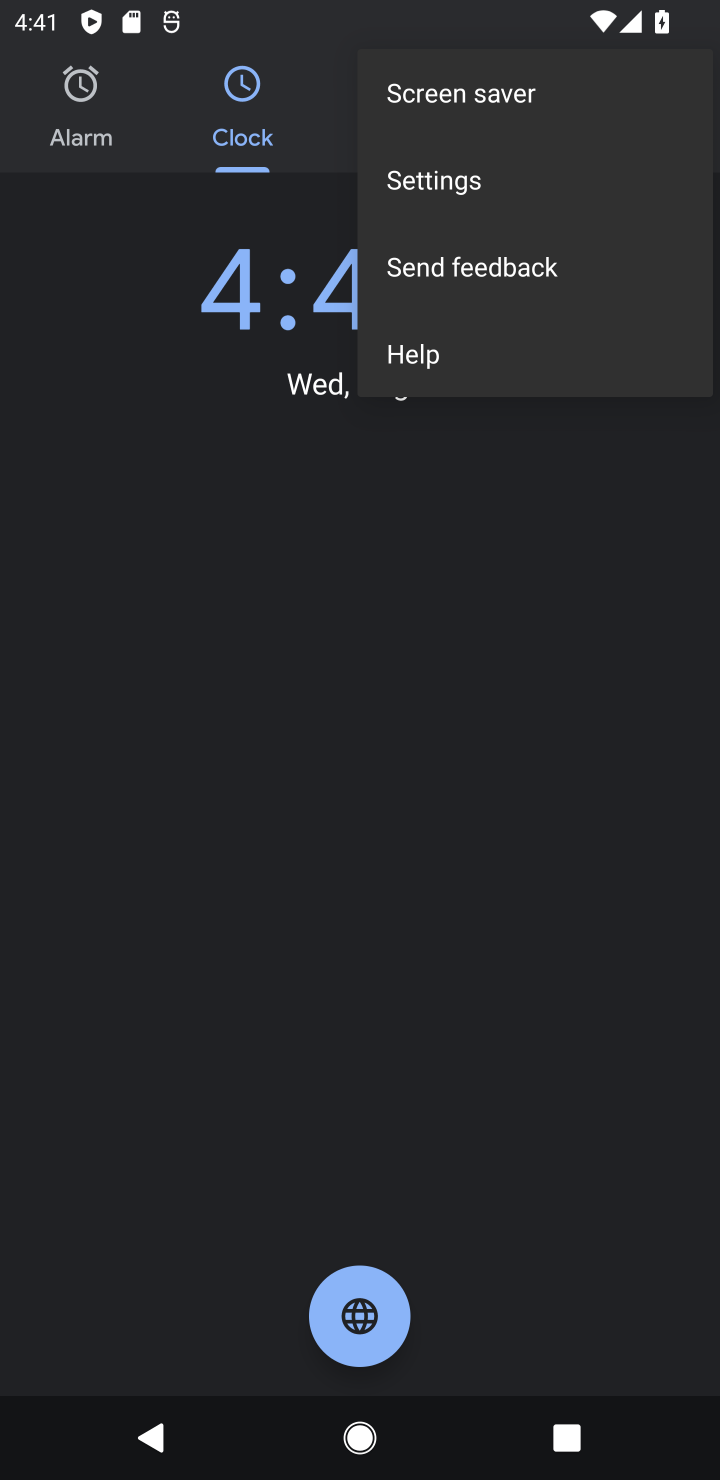
Step 31: click (457, 178)
Your task to perform on an android device: change the clock display to digital Image 32: 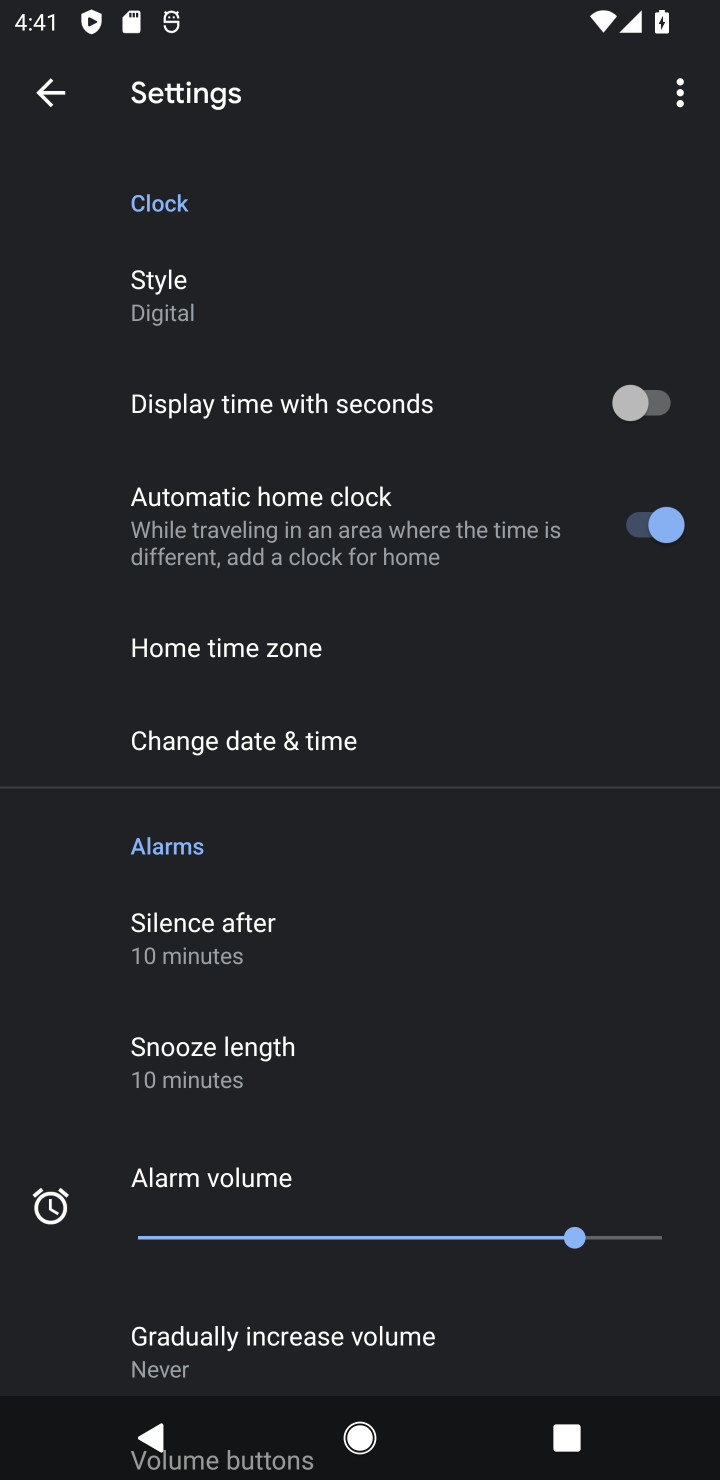
Step 32: click (181, 291)
Your task to perform on an android device: change the clock display to digital Image 33: 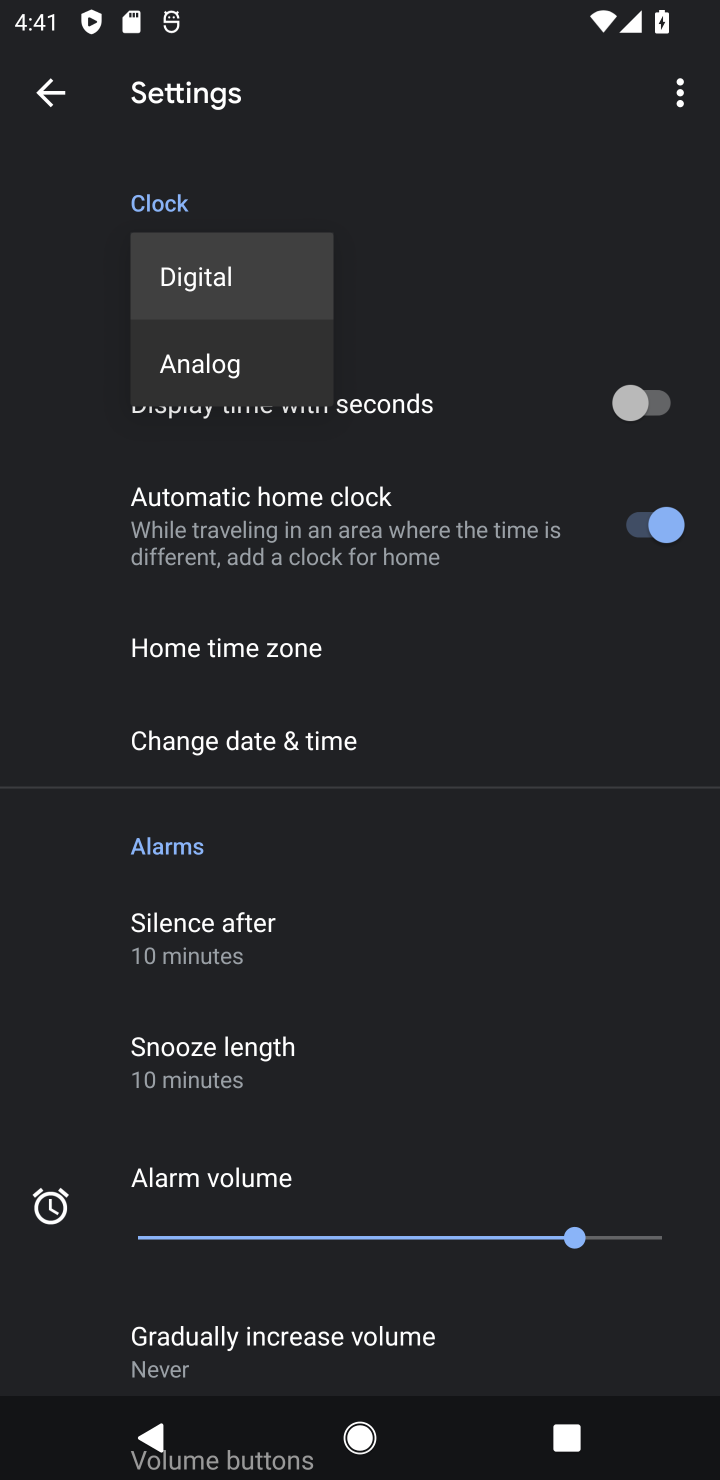
Step 33: click (211, 290)
Your task to perform on an android device: change the clock display to digital Image 34: 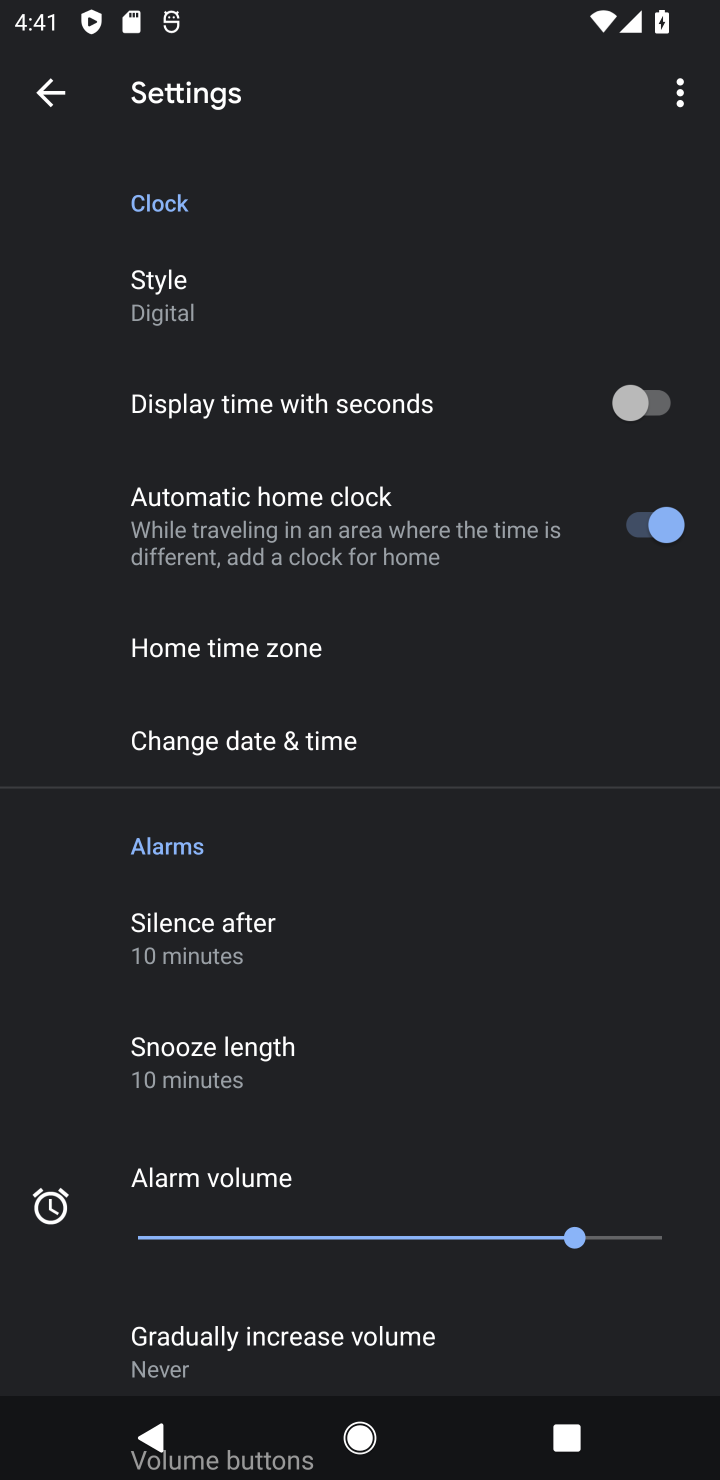
Step 34: task complete